Your task to perform on an android device: Check the settings for the Twitter app Image 0: 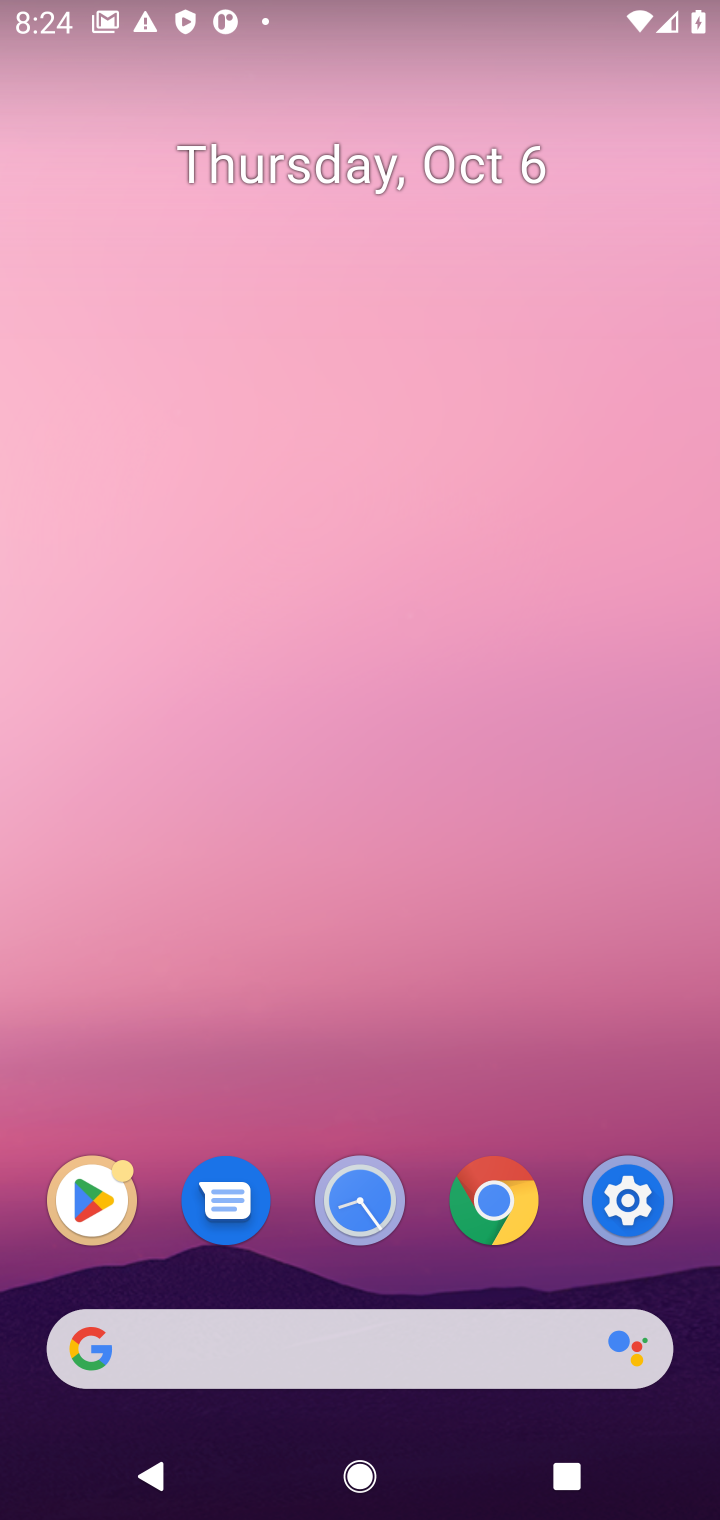
Step 0: click (492, 1210)
Your task to perform on an android device: Check the settings for the Twitter app Image 1: 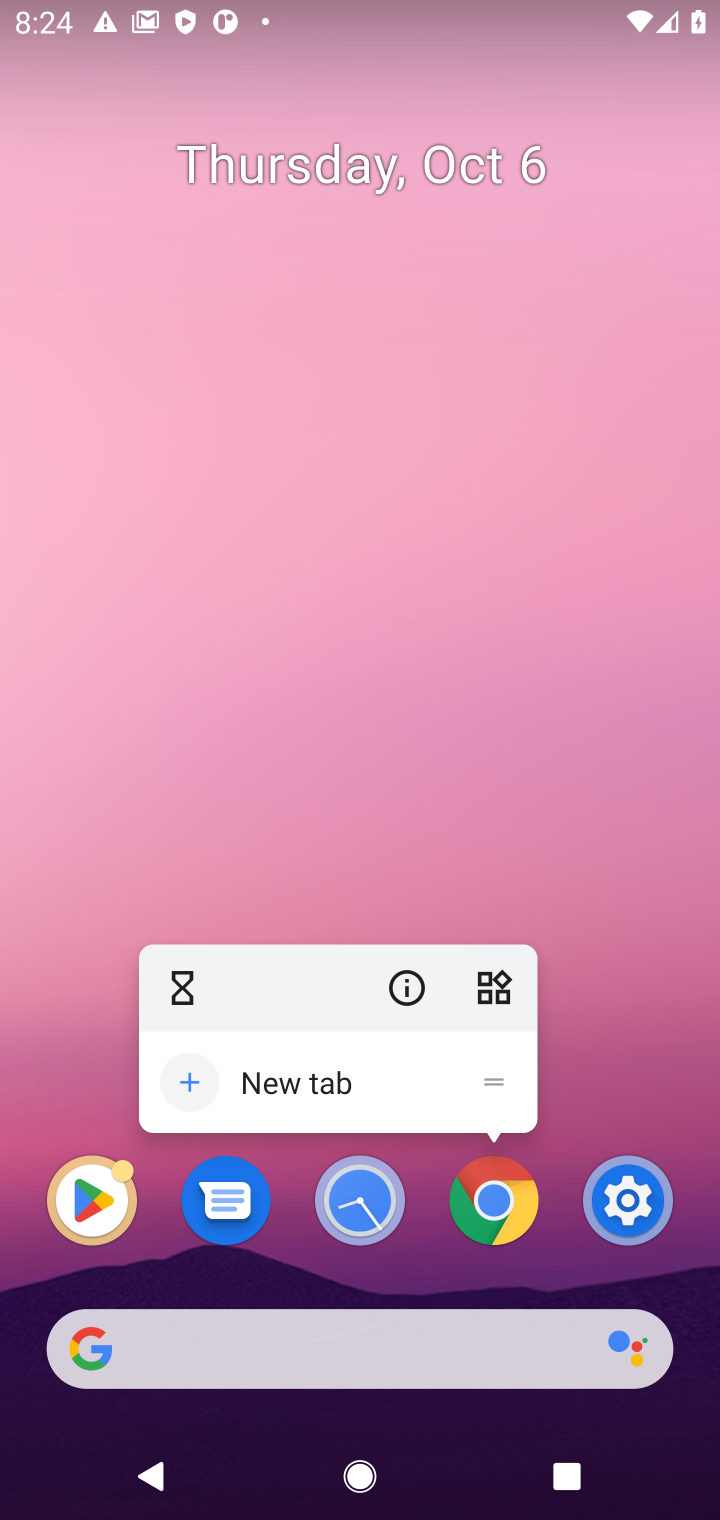
Step 1: click (516, 1202)
Your task to perform on an android device: Check the settings for the Twitter app Image 2: 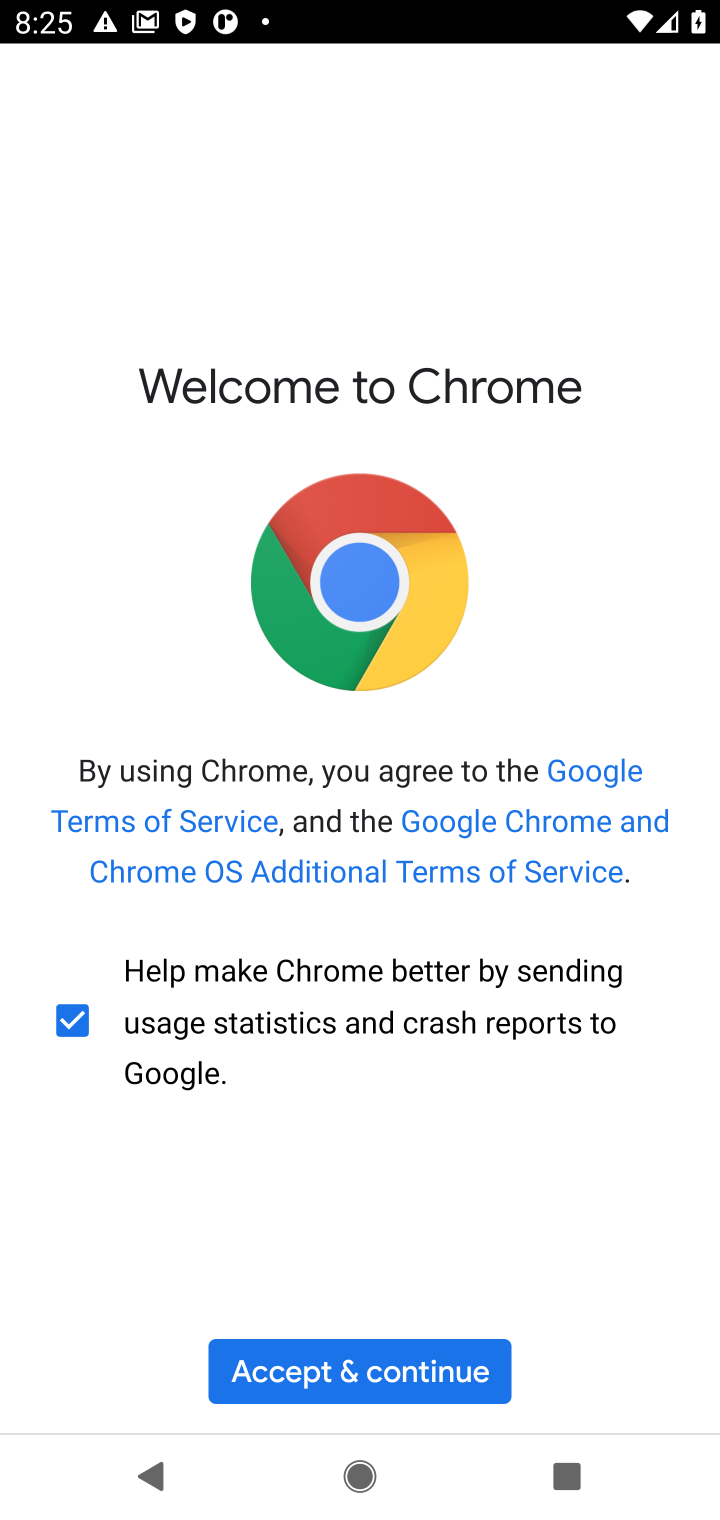
Step 2: click (404, 1375)
Your task to perform on an android device: Check the settings for the Twitter app Image 3: 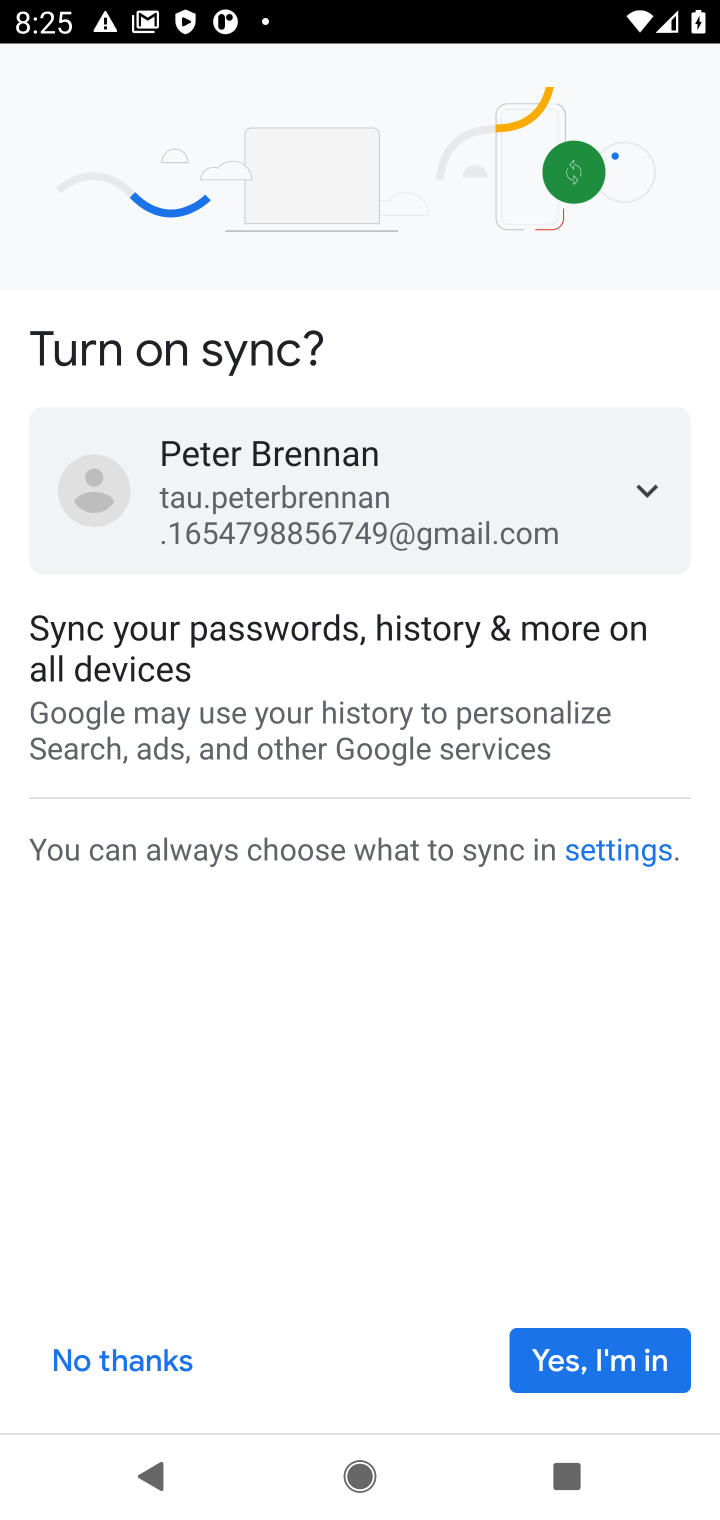
Step 3: click (158, 1363)
Your task to perform on an android device: Check the settings for the Twitter app Image 4: 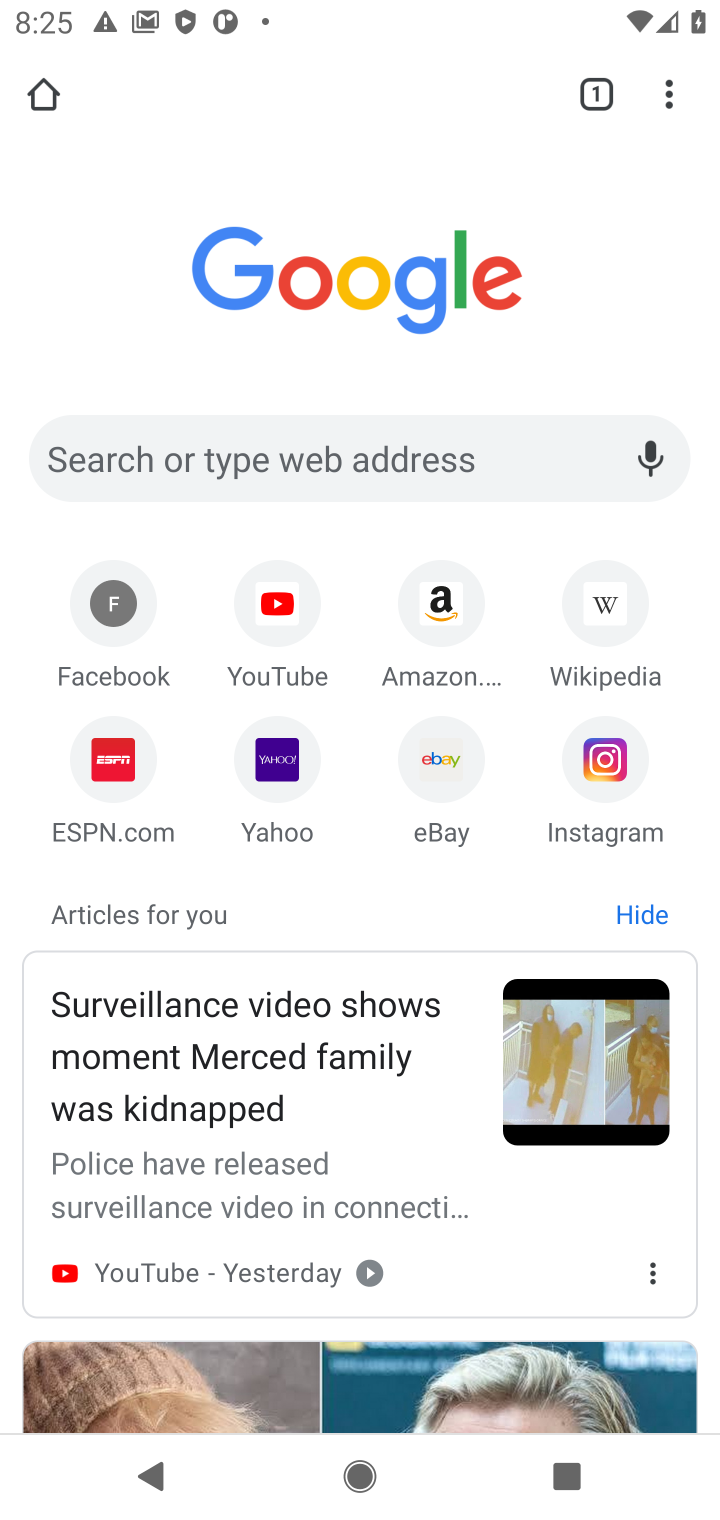
Step 4: click (419, 441)
Your task to perform on an android device: Check the settings for the Twitter app Image 5: 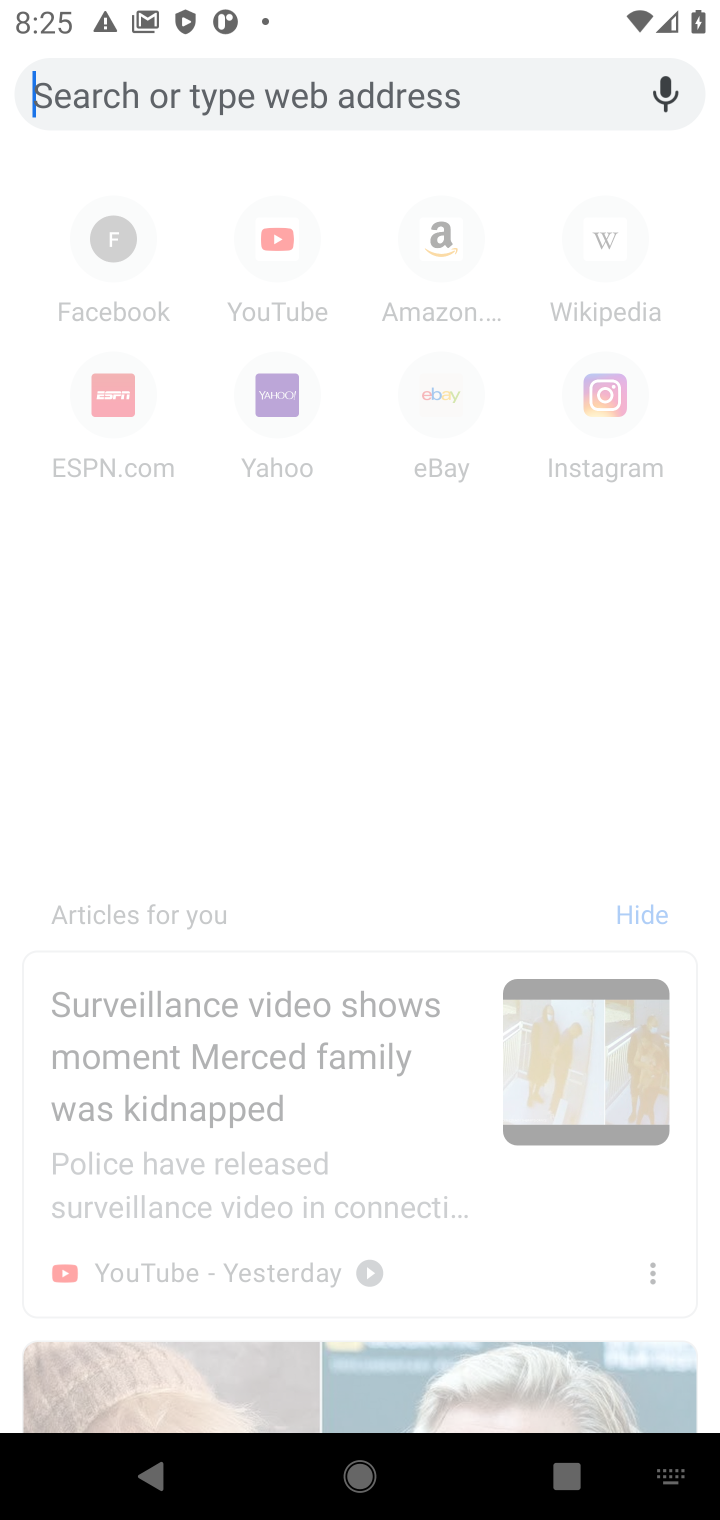
Step 5: type "twitter app"
Your task to perform on an android device: Check the settings for the Twitter app Image 6: 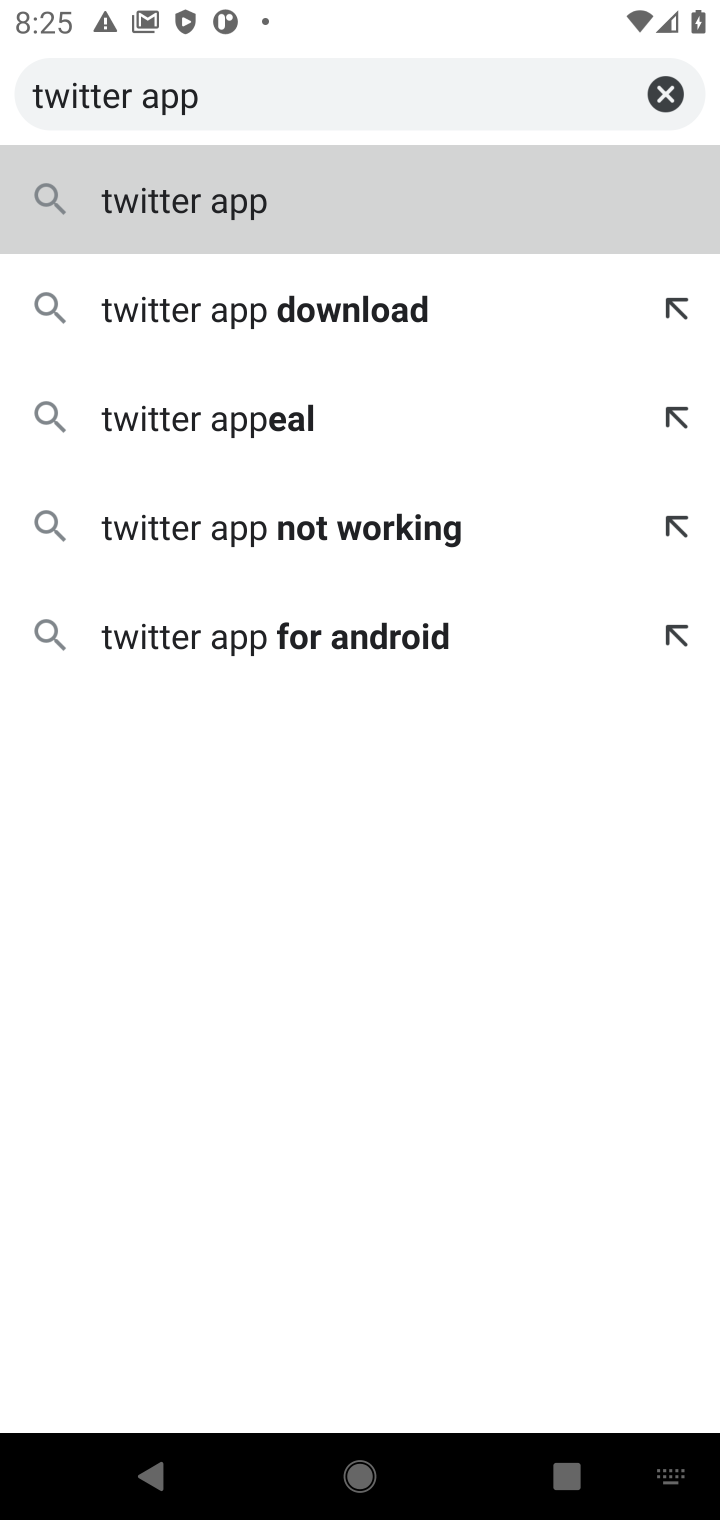
Step 6: click (159, 308)
Your task to perform on an android device: Check the settings for the Twitter app Image 7: 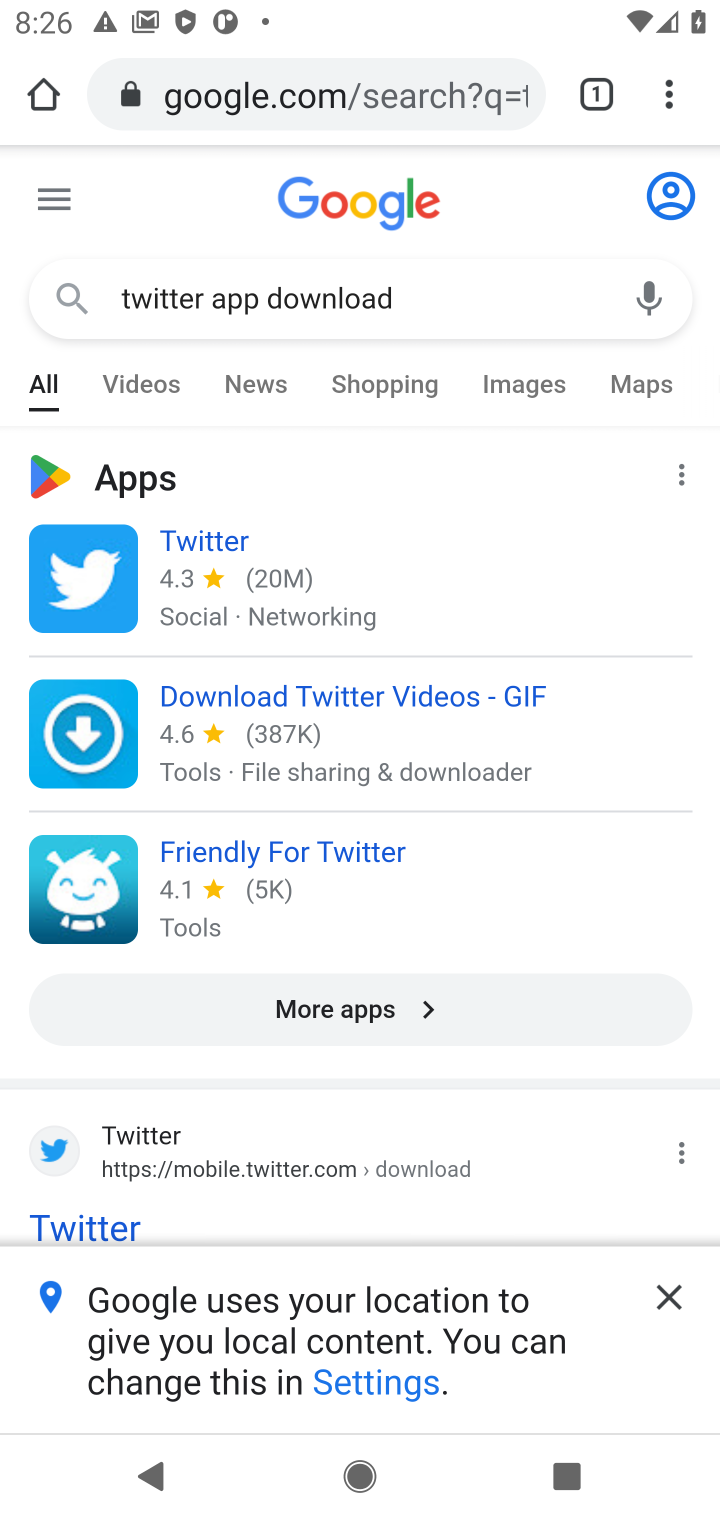
Step 7: click (209, 544)
Your task to perform on an android device: Check the settings for the Twitter app Image 8: 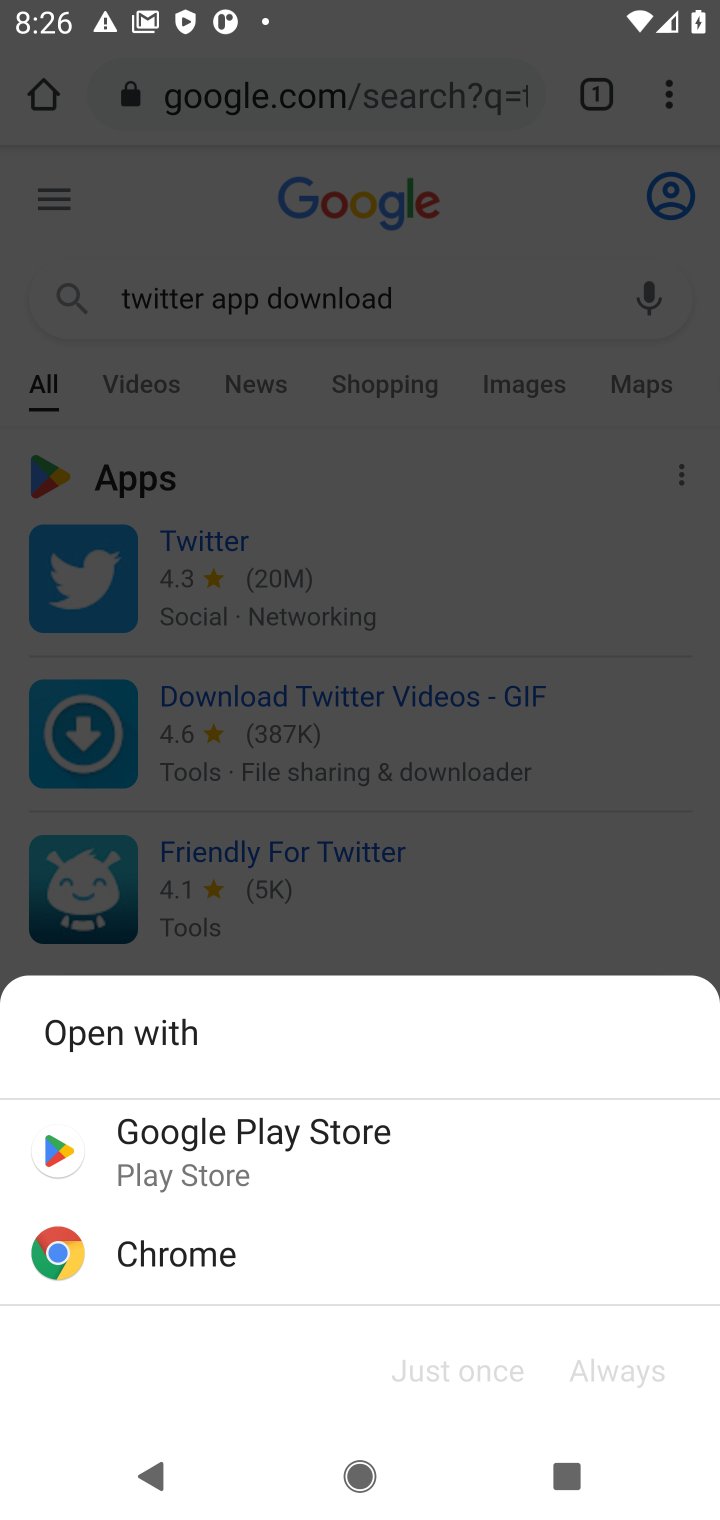
Step 8: click (256, 1134)
Your task to perform on an android device: Check the settings for the Twitter app Image 9: 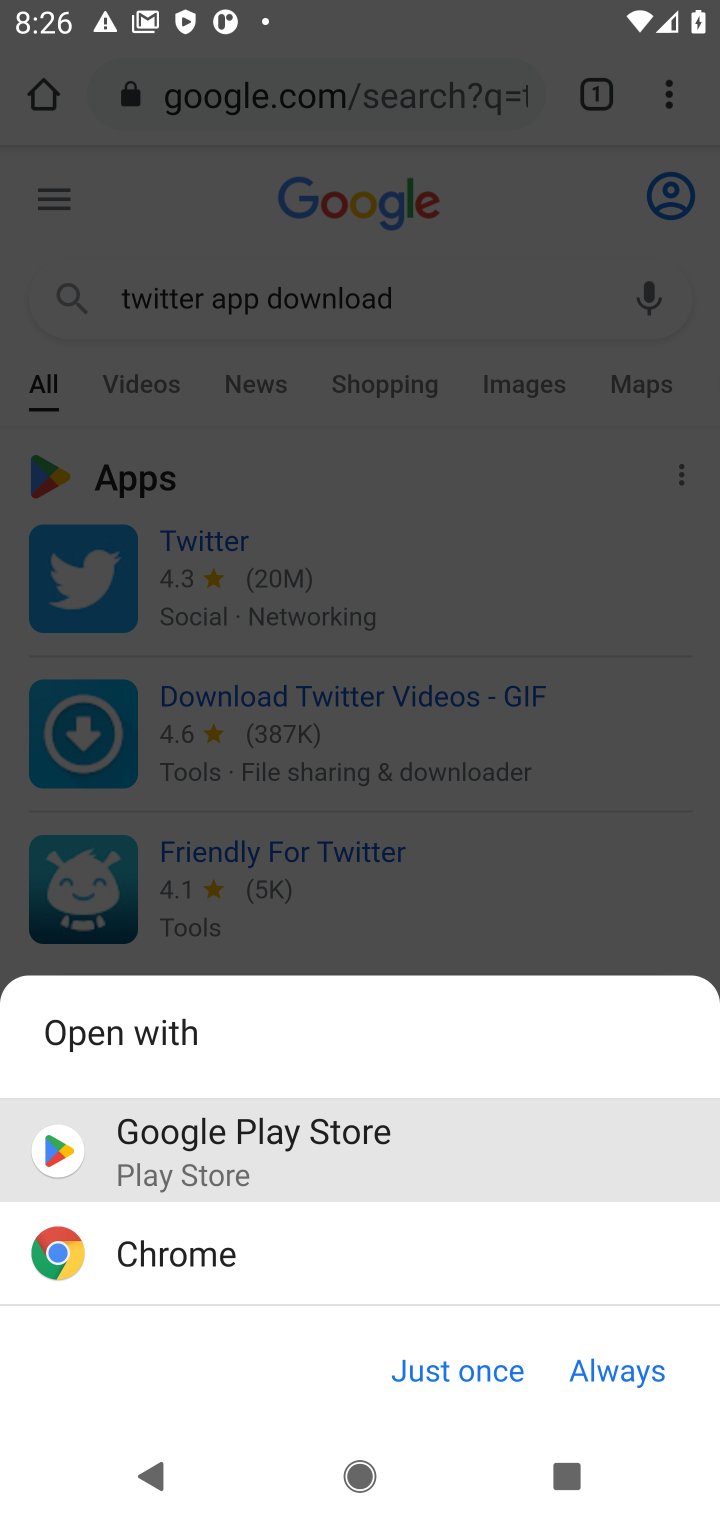
Step 9: press back button
Your task to perform on an android device: Check the settings for the Twitter app Image 10: 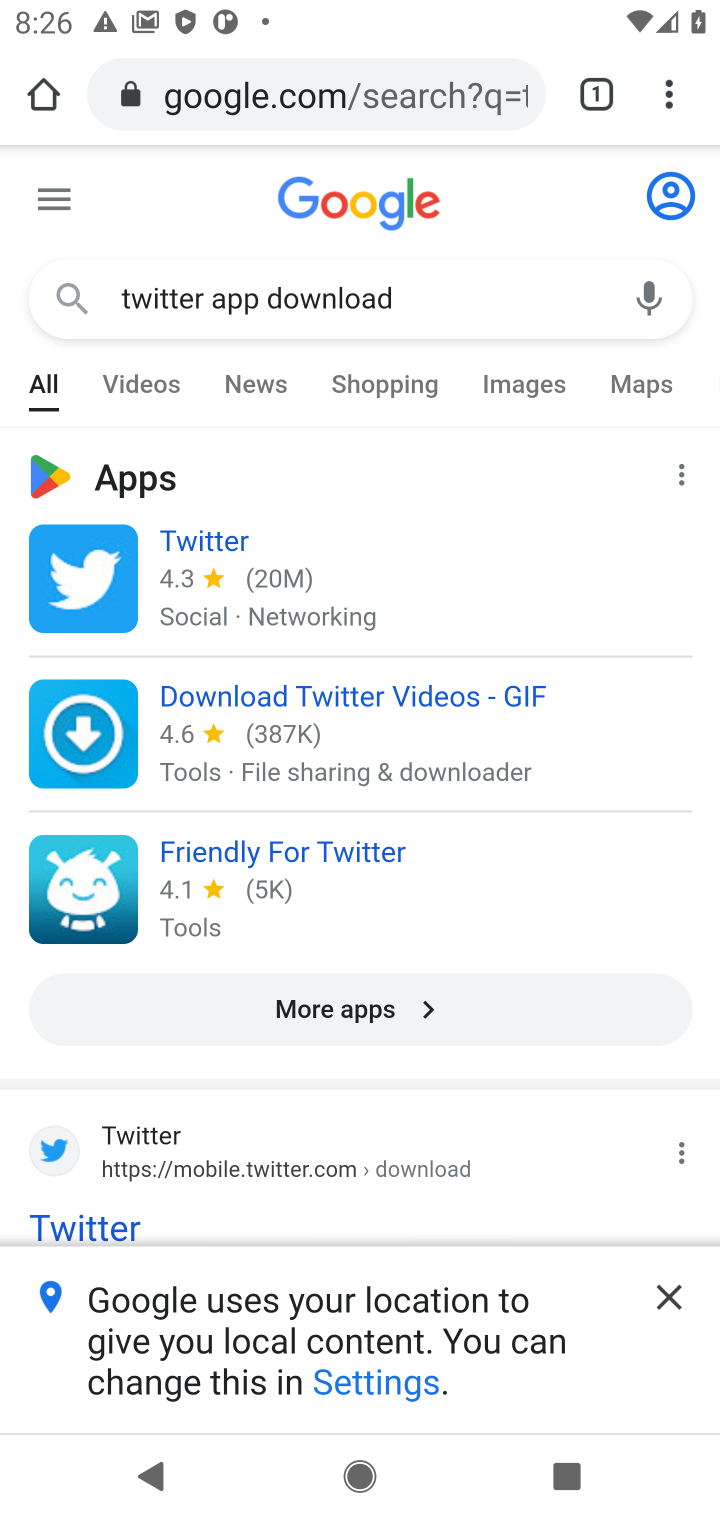
Step 10: drag from (477, 1074) to (590, 442)
Your task to perform on an android device: Check the settings for the Twitter app Image 11: 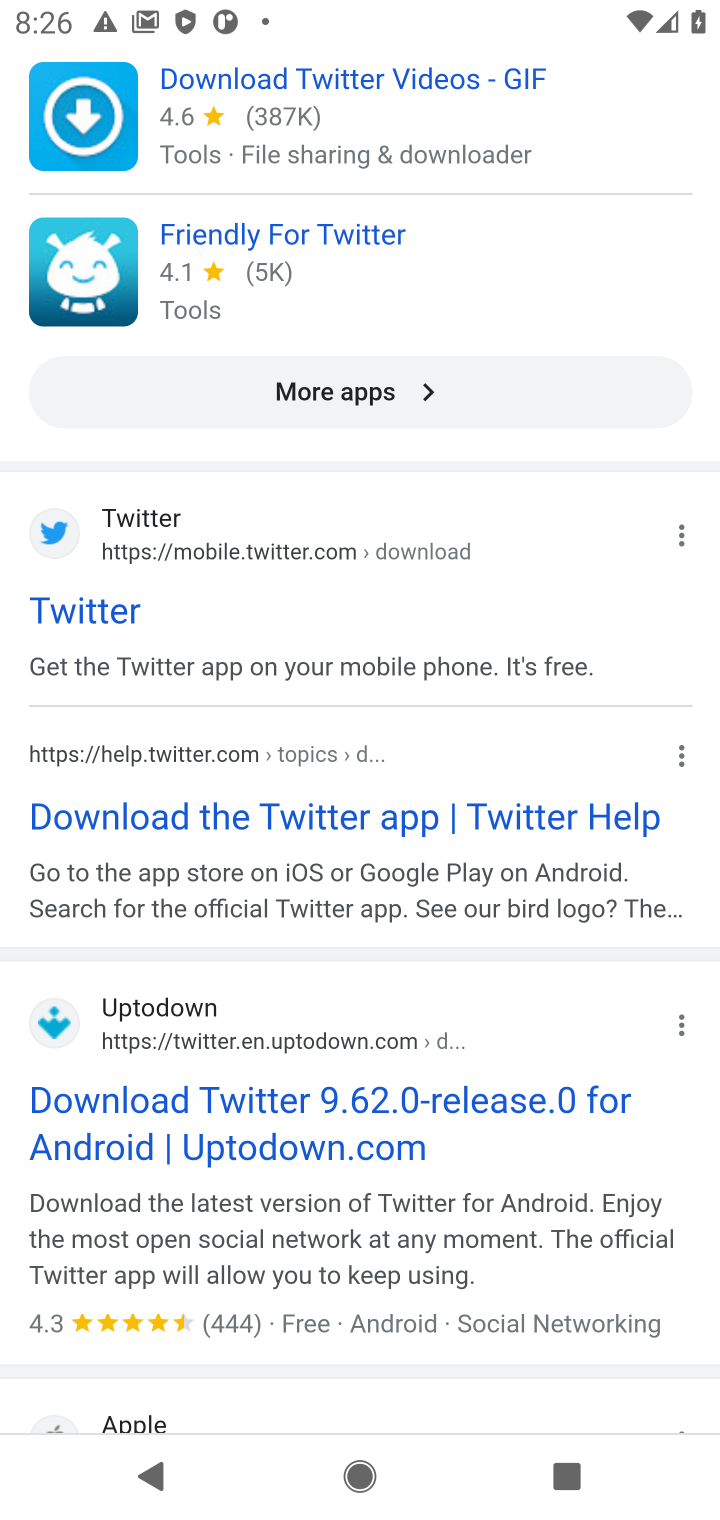
Step 11: click (104, 607)
Your task to perform on an android device: Check the settings for the Twitter app Image 12: 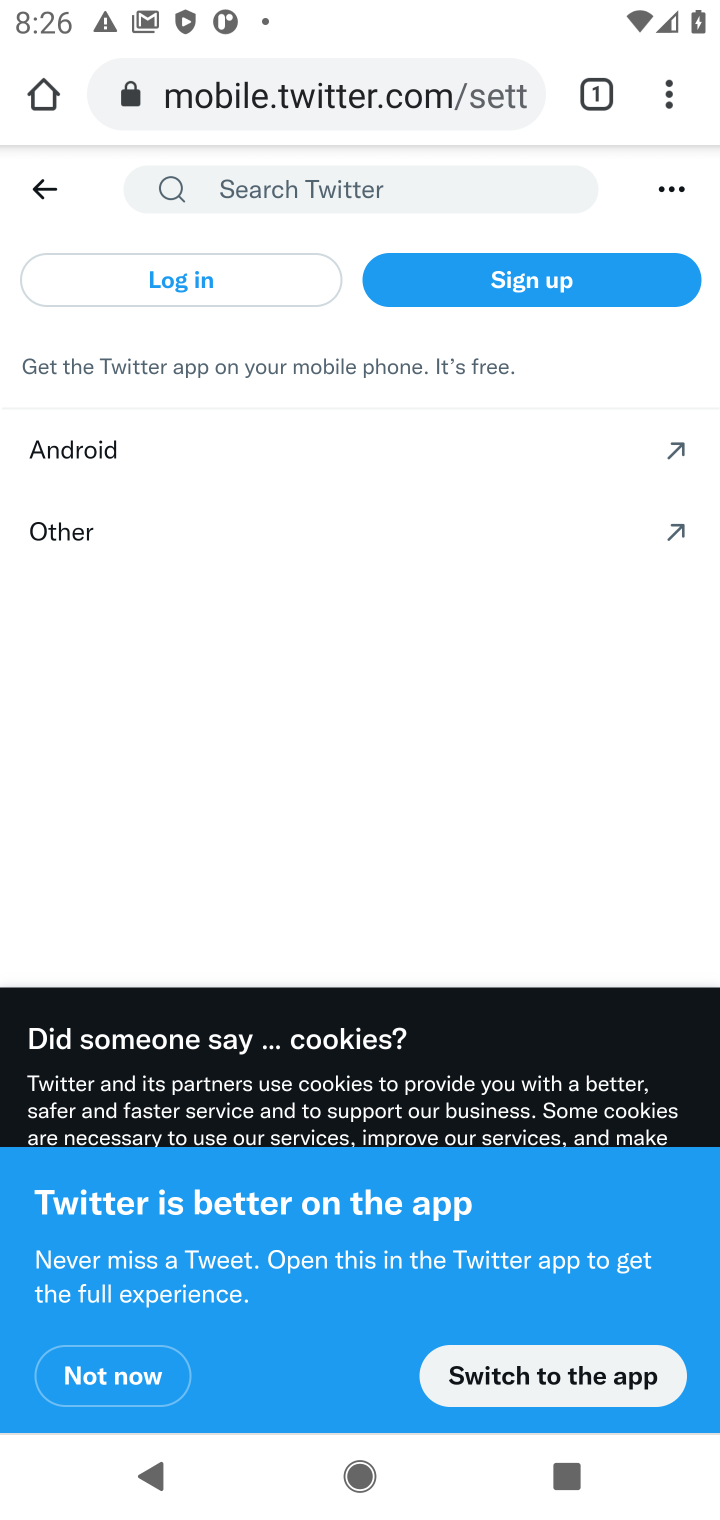
Step 12: drag from (449, 834) to (512, 374)
Your task to perform on an android device: Check the settings for the Twitter app Image 13: 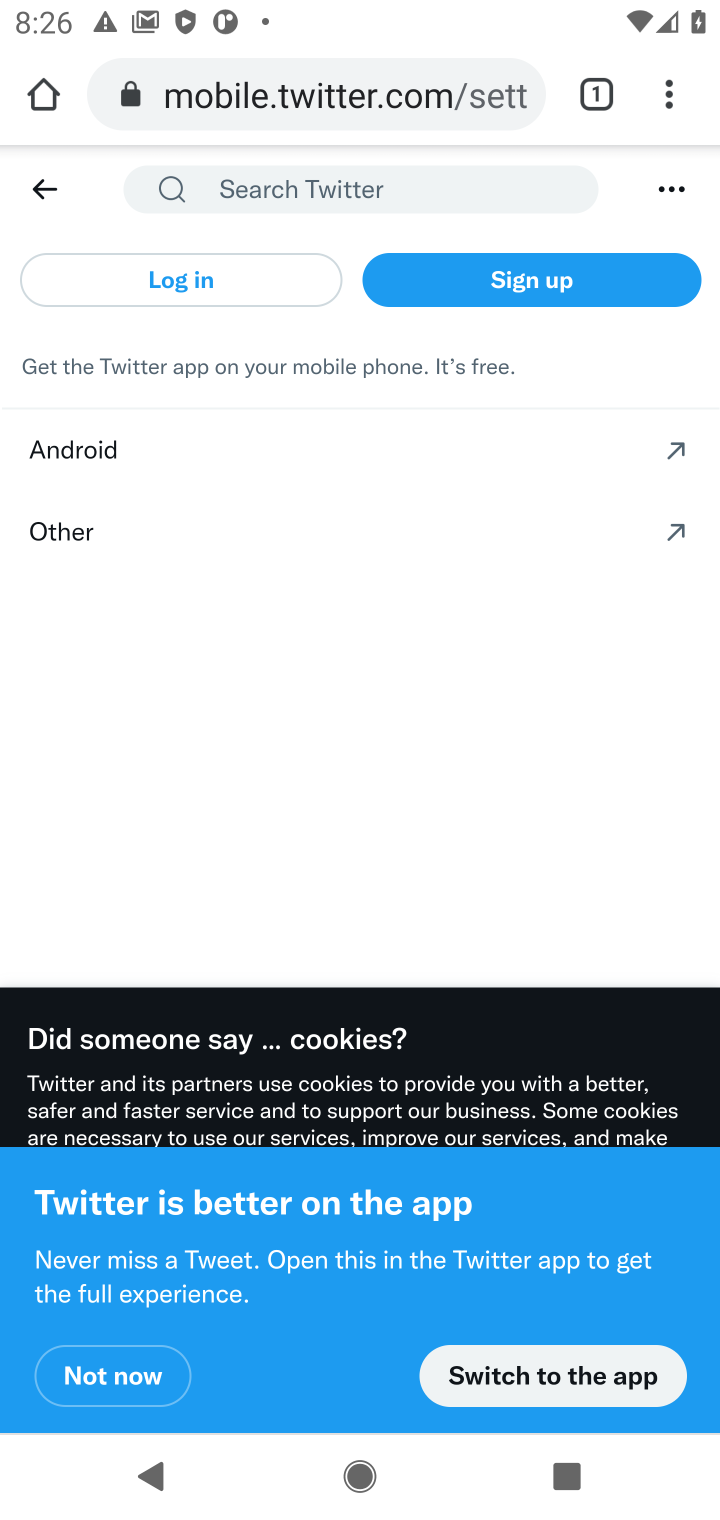
Step 13: drag from (416, 667) to (479, 448)
Your task to perform on an android device: Check the settings for the Twitter app Image 14: 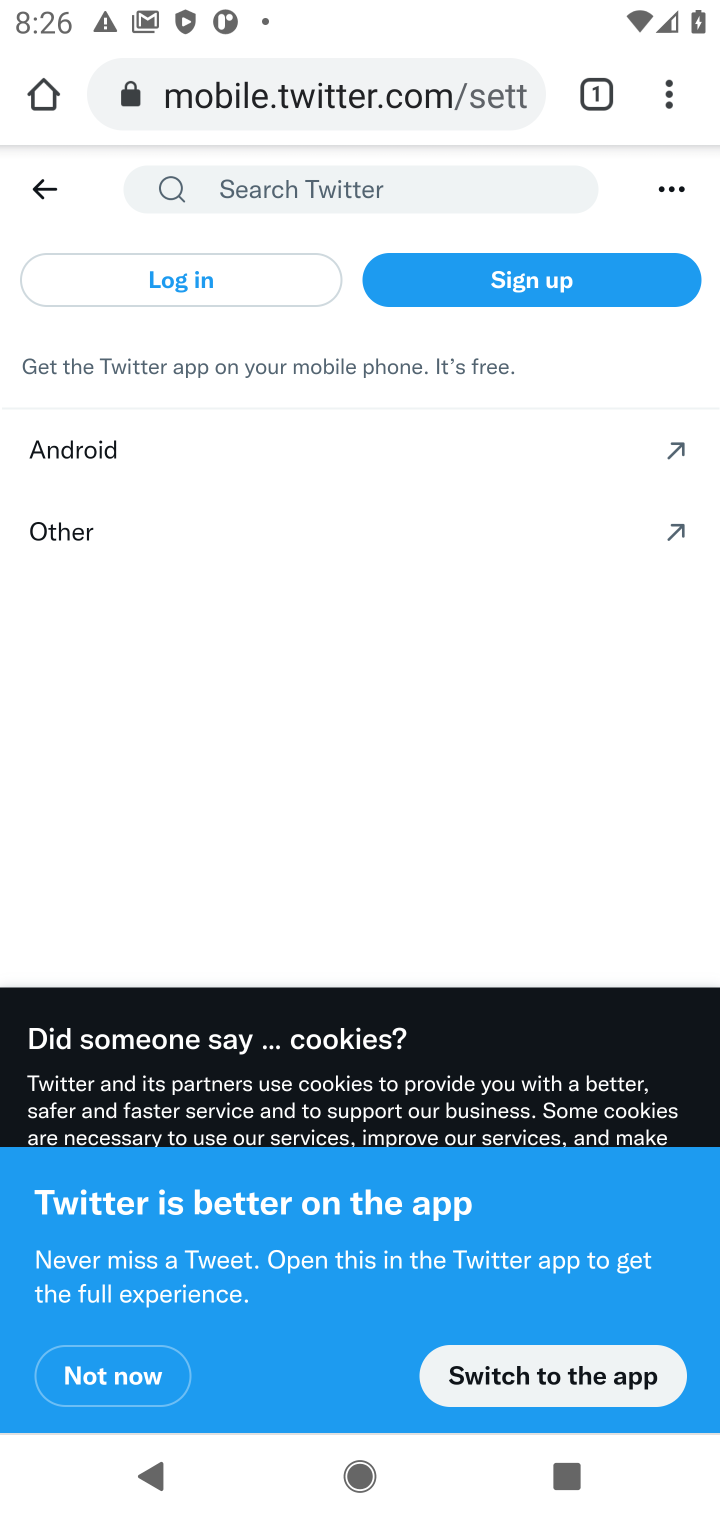
Step 14: press back button
Your task to perform on an android device: Check the settings for the Twitter app Image 15: 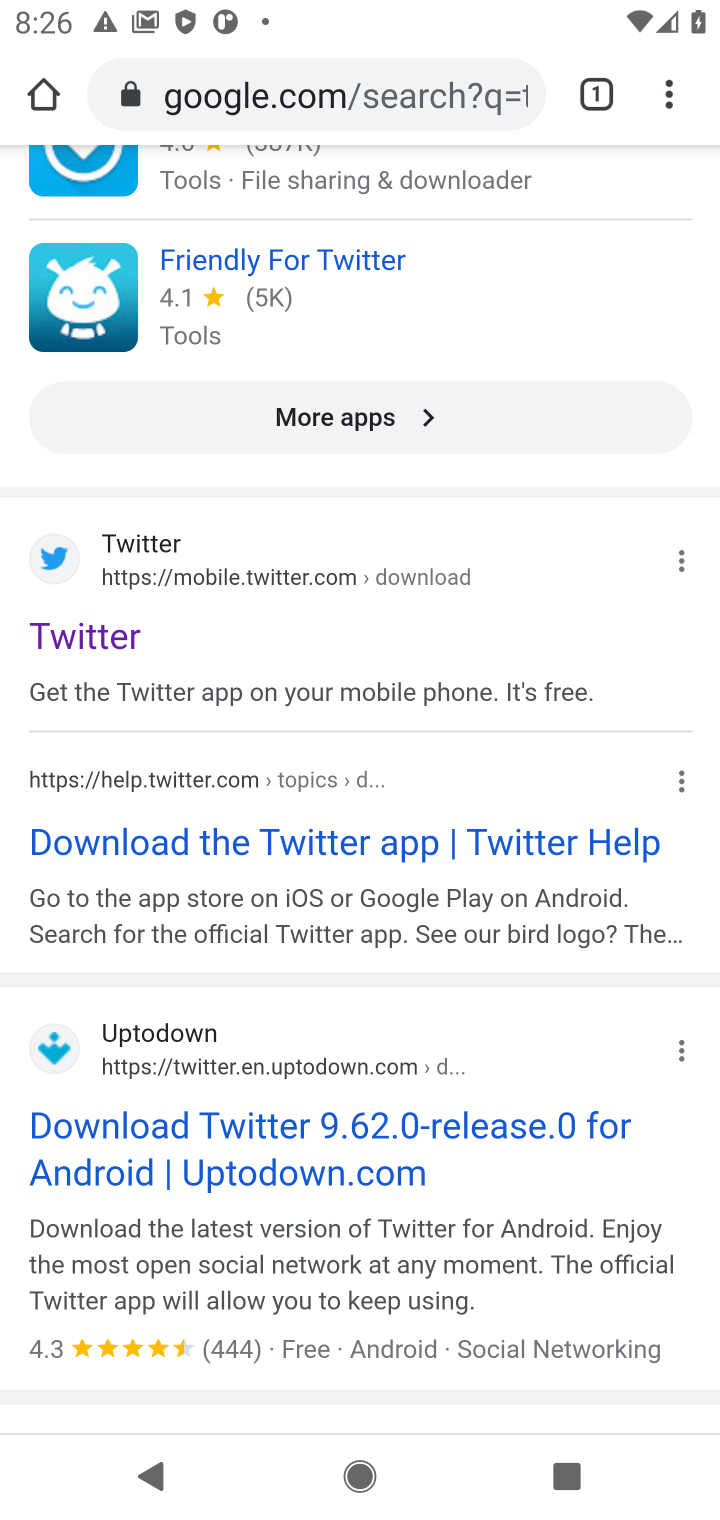
Step 15: click (346, 852)
Your task to perform on an android device: Check the settings for the Twitter app Image 16: 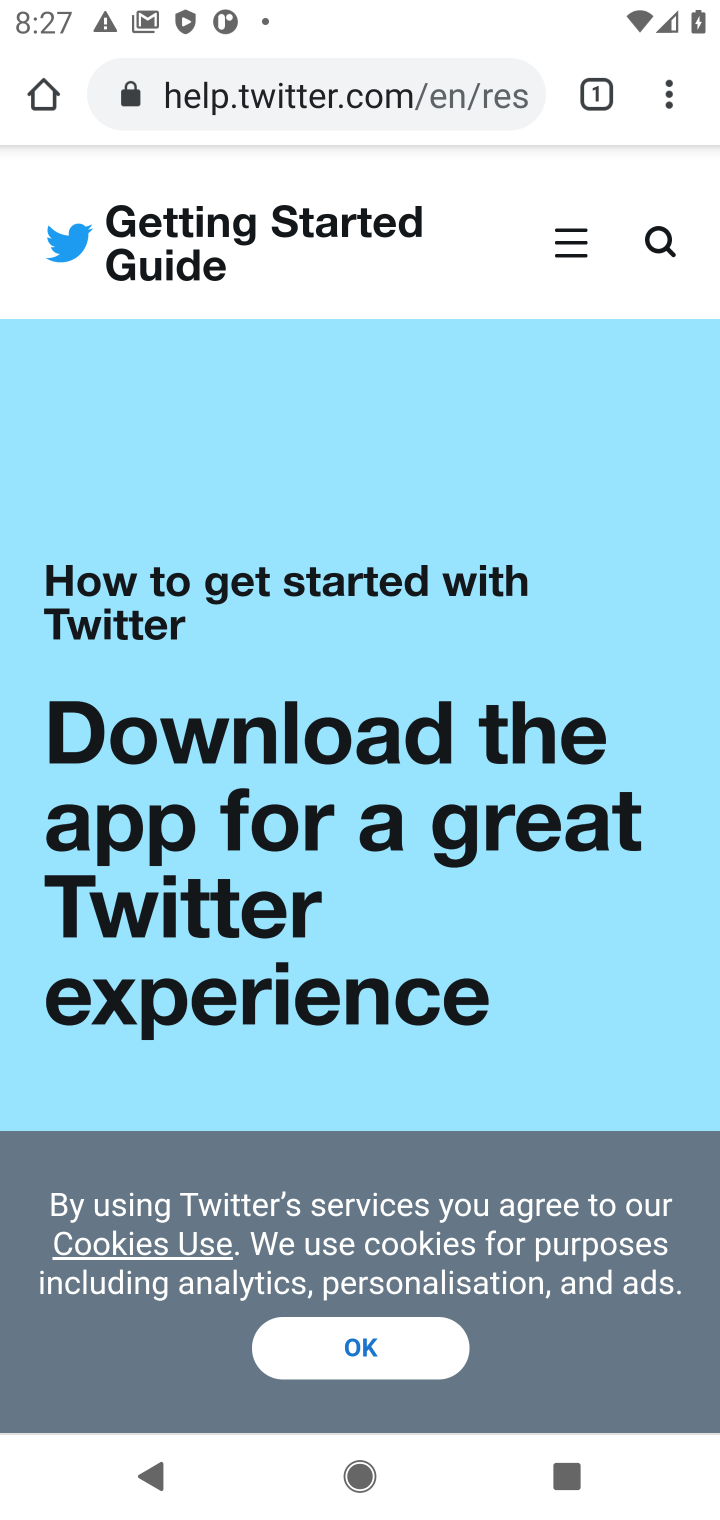
Step 16: click (378, 1371)
Your task to perform on an android device: Check the settings for the Twitter app Image 17: 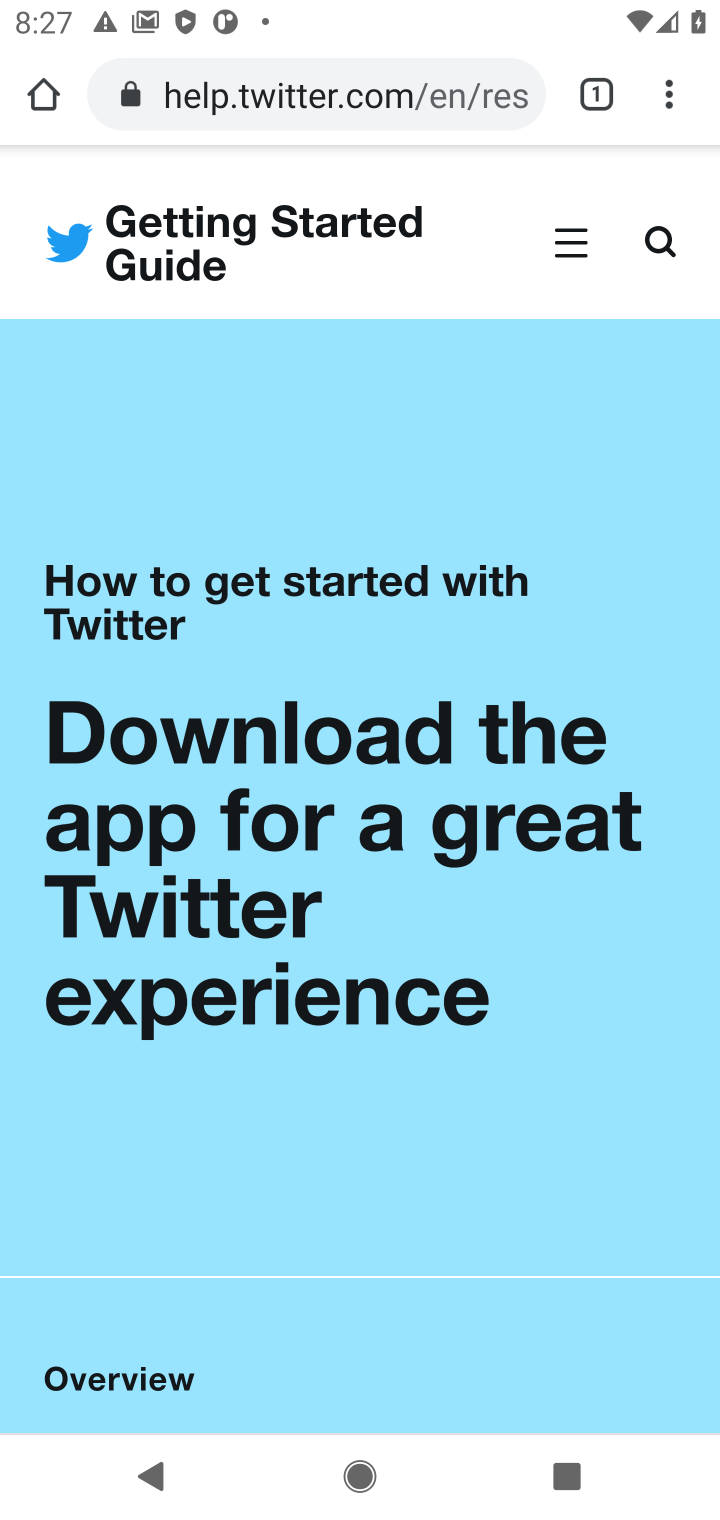
Step 17: drag from (411, 1140) to (508, 477)
Your task to perform on an android device: Check the settings for the Twitter app Image 18: 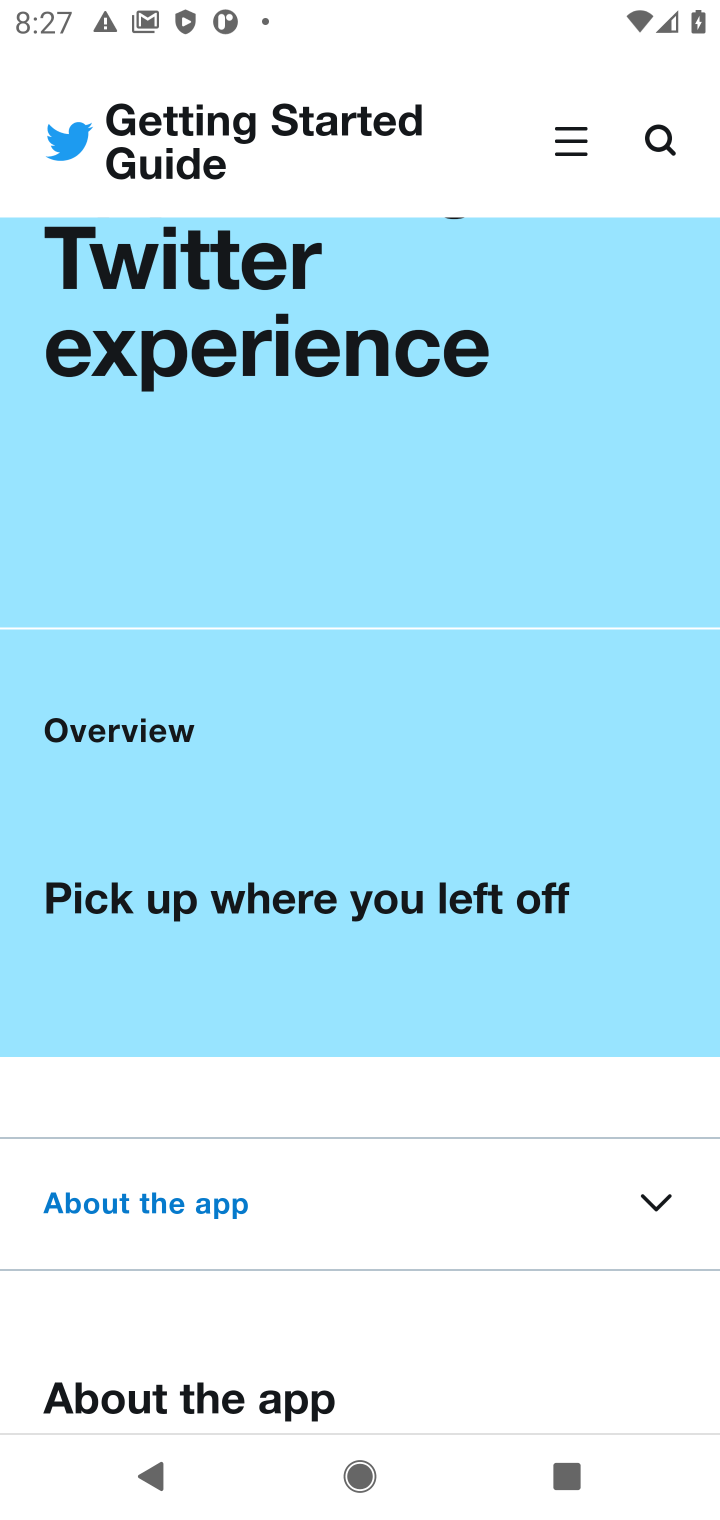
Step 18: press back button
Your task to perform on an android device: Check the settings for the Twitter app Image 19: 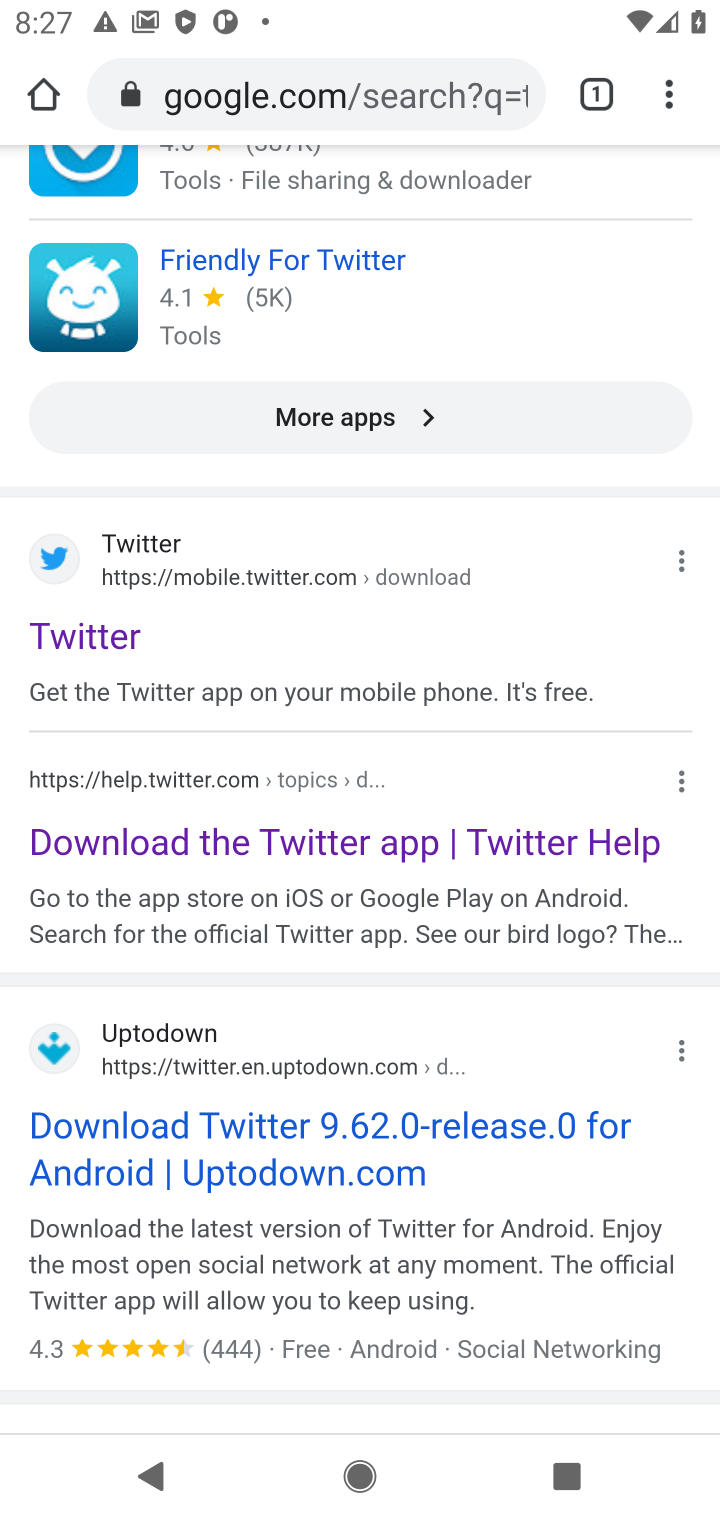
Step 19: press back button
Your task to perform on an android device: Check the settings for the Twitter app Image 20: 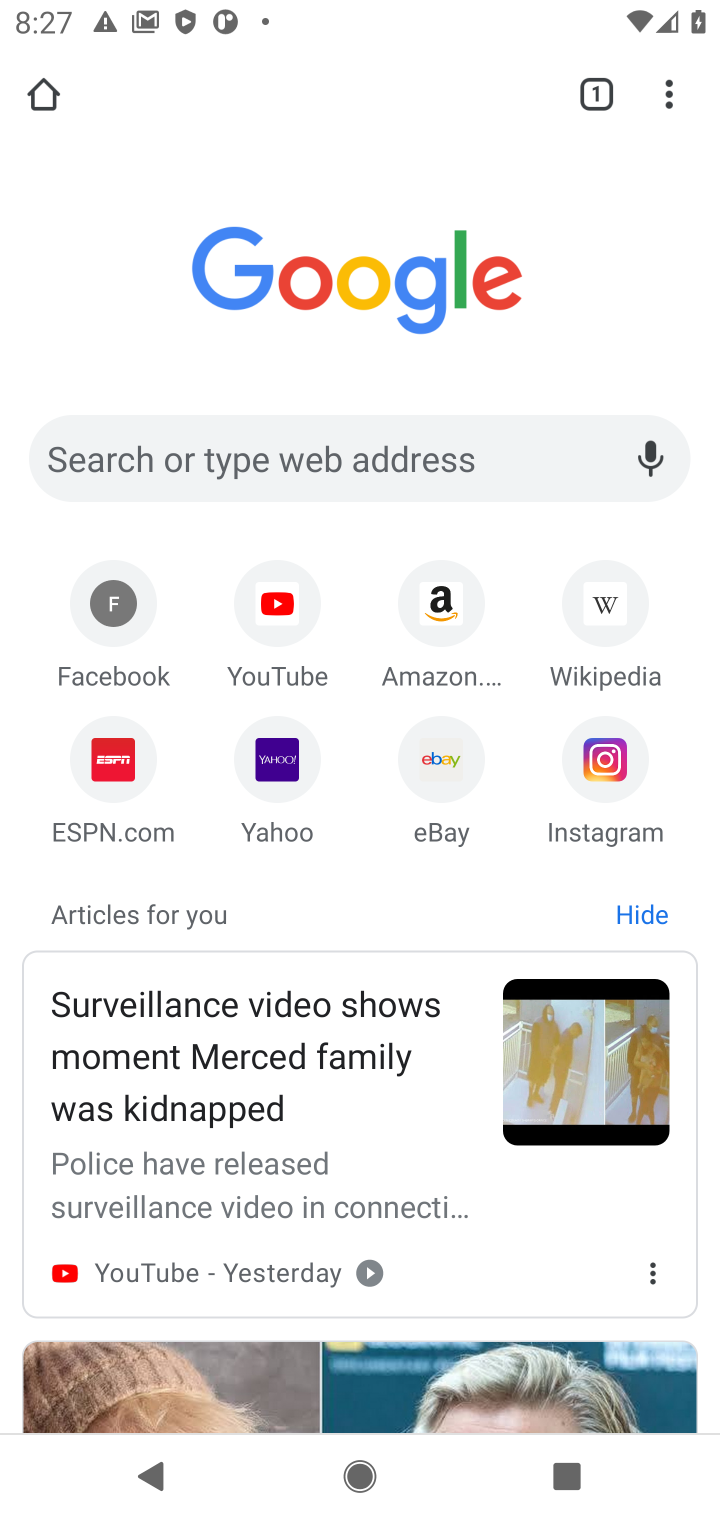
Step 20: press home button
Your task to perform on an android device: Check the settings for the Twitter app Image 21: 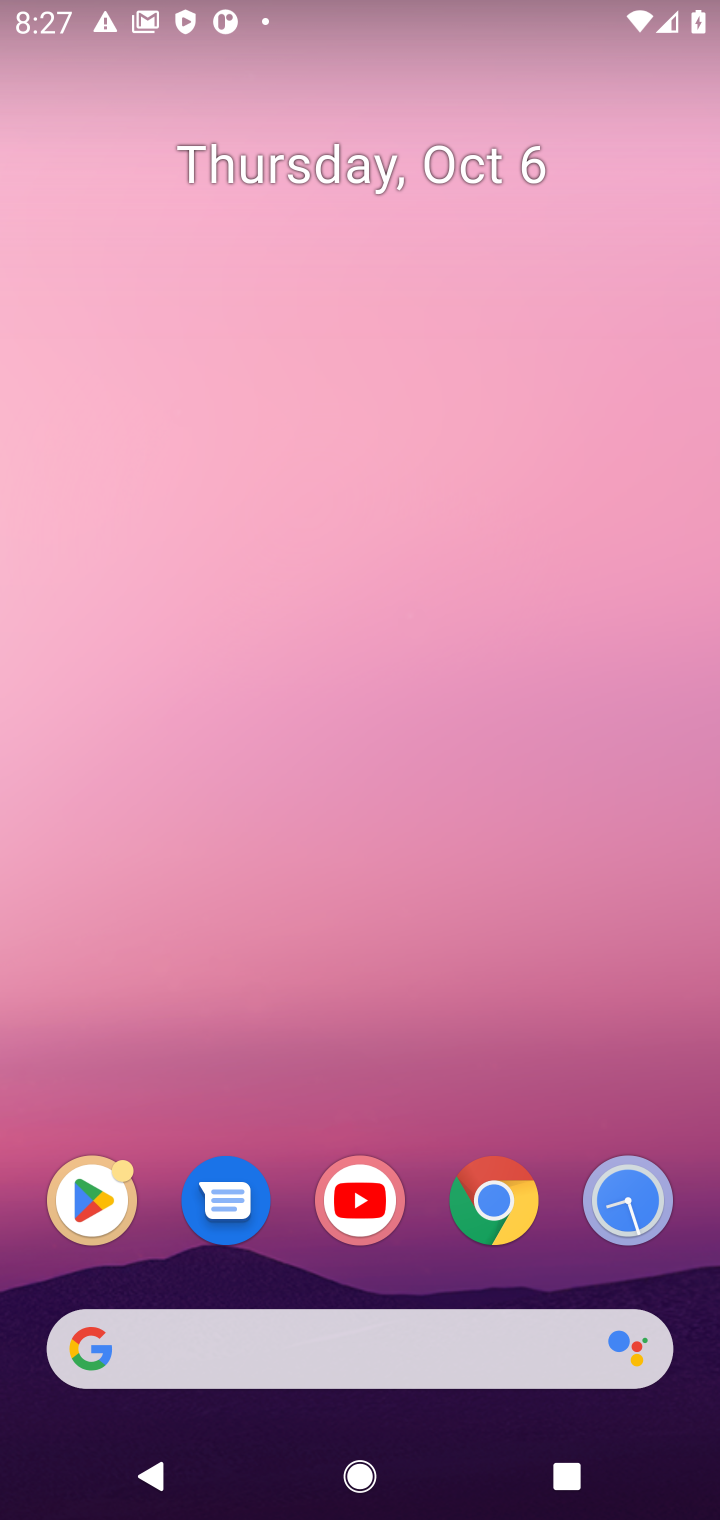
Step 21: drag from (354, 1135) to (385, 363)
Your task to perform on an android device: Check the settings for the Twitter app Image 22: 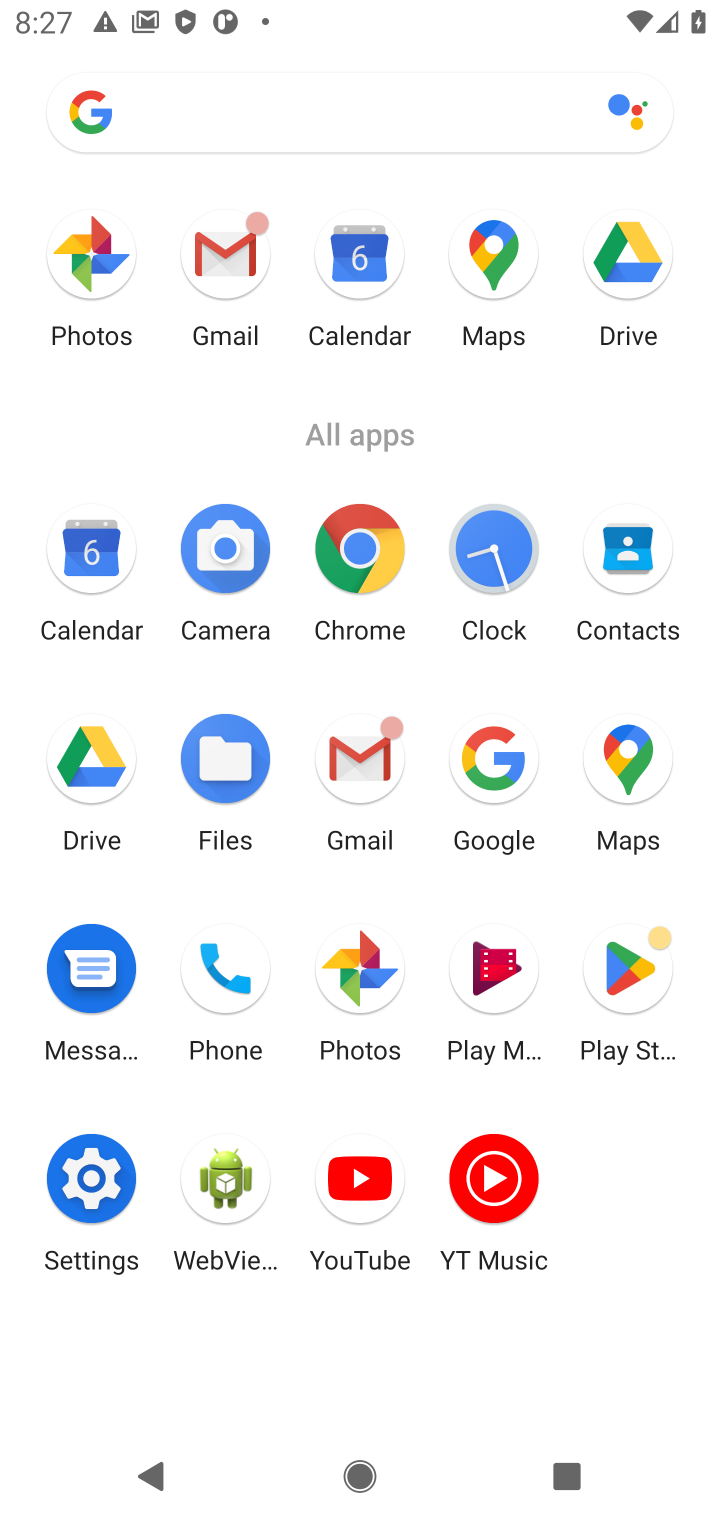
Step 22: click (243, 104)
Your task to perform on an android device: Check the settings for the Twitter app Image 23: 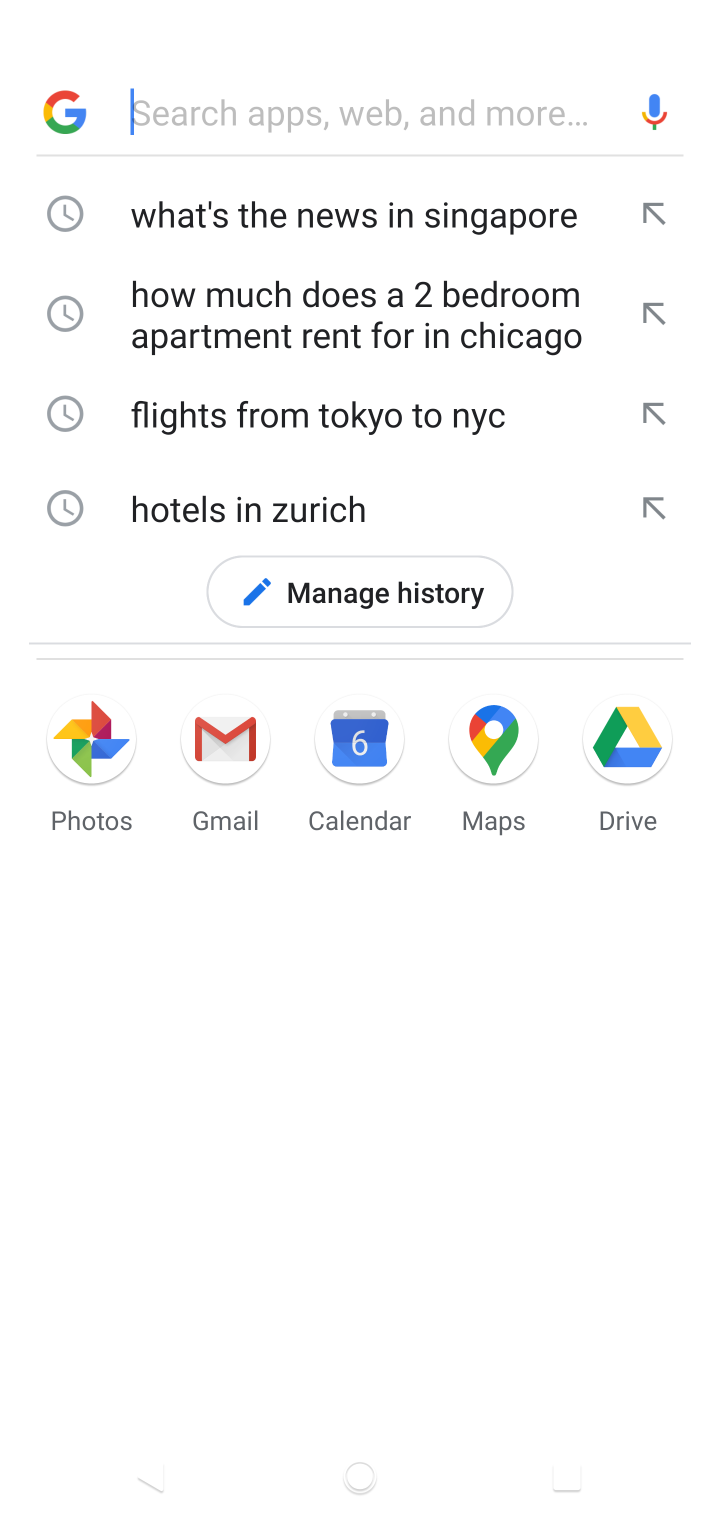
Step 23: type "twitter app"
Your task to perform on an android device: Check the settings for the Twitter app Image 24: 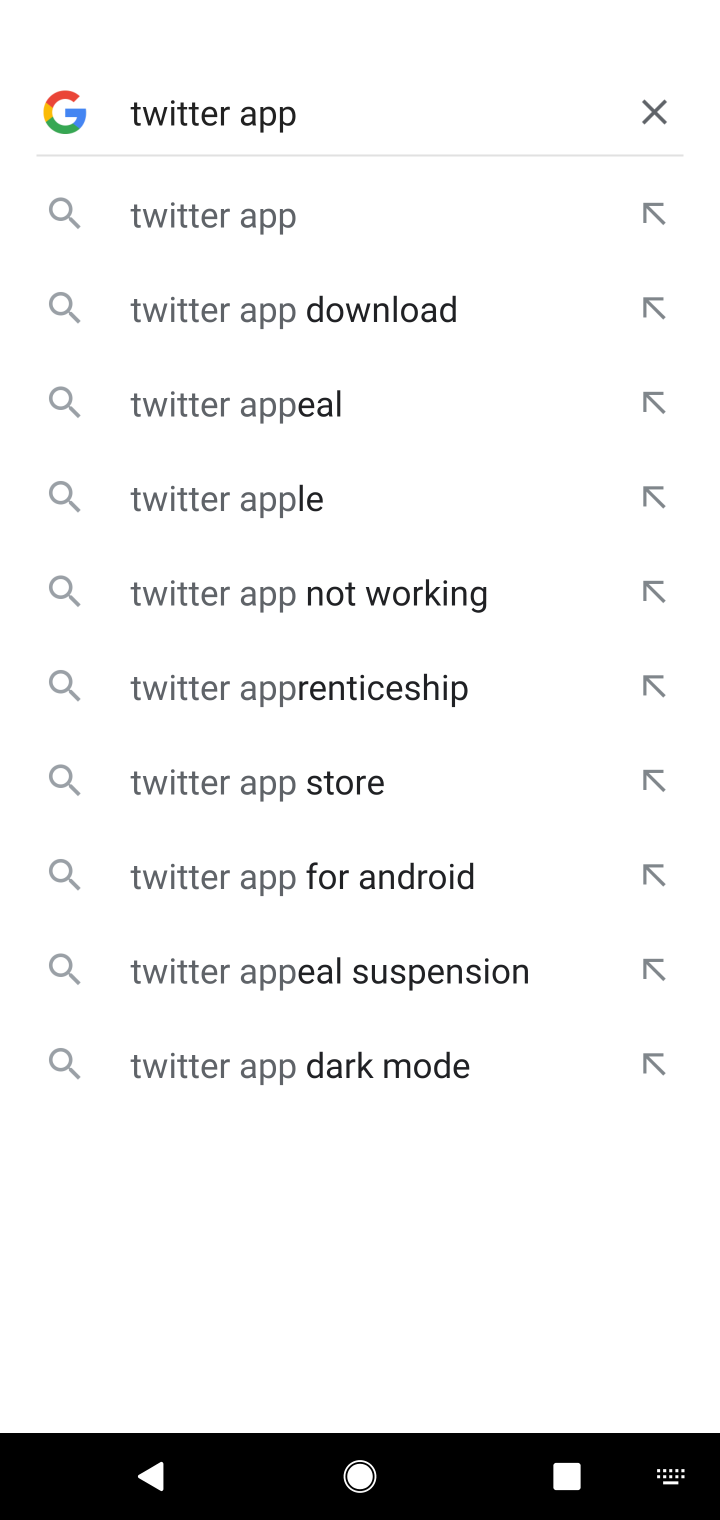
Step 24: type ""
Your task to perform on an android device: Check the settings for the Twitter app Image 25: 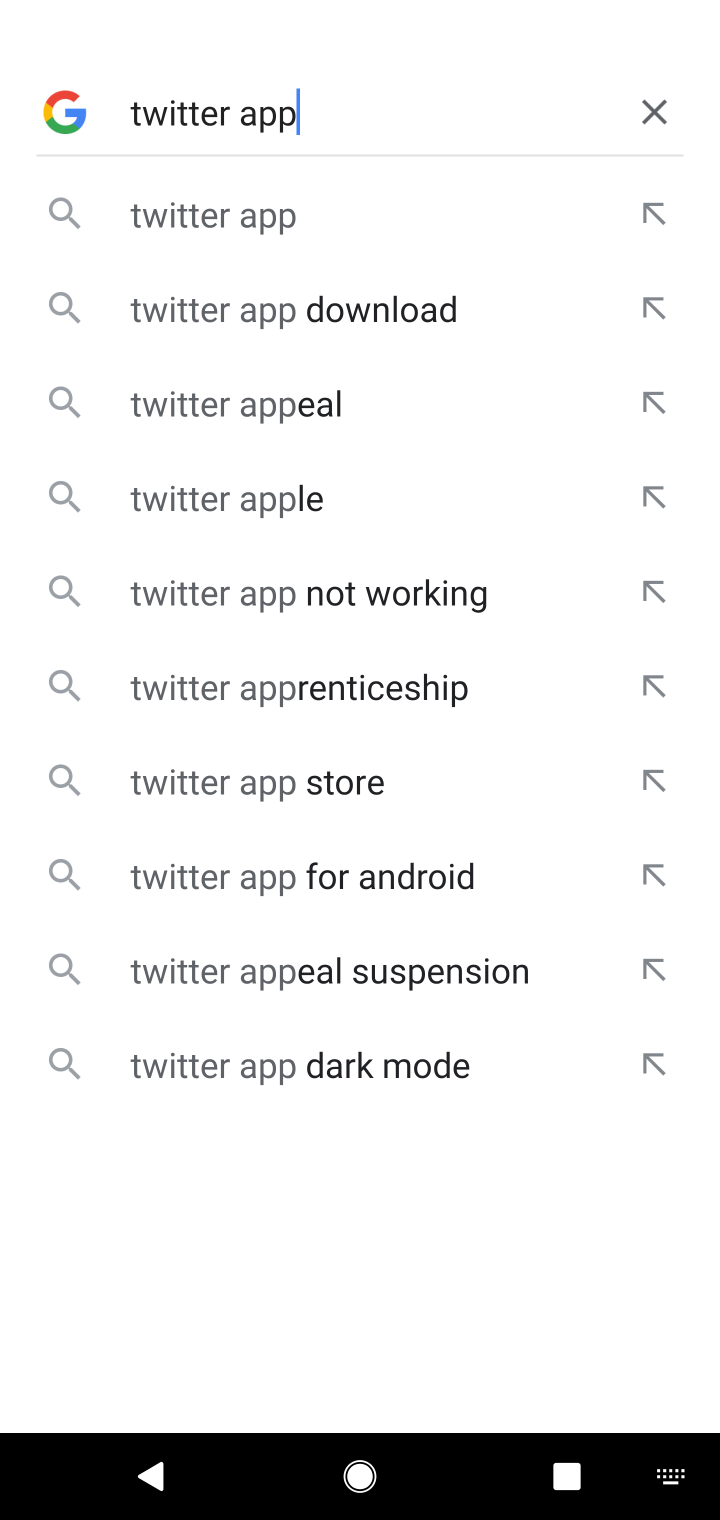
Step 25: click (284, 311)
Your task to perform on an android device: Check the settings for the Twitter app Image 26: 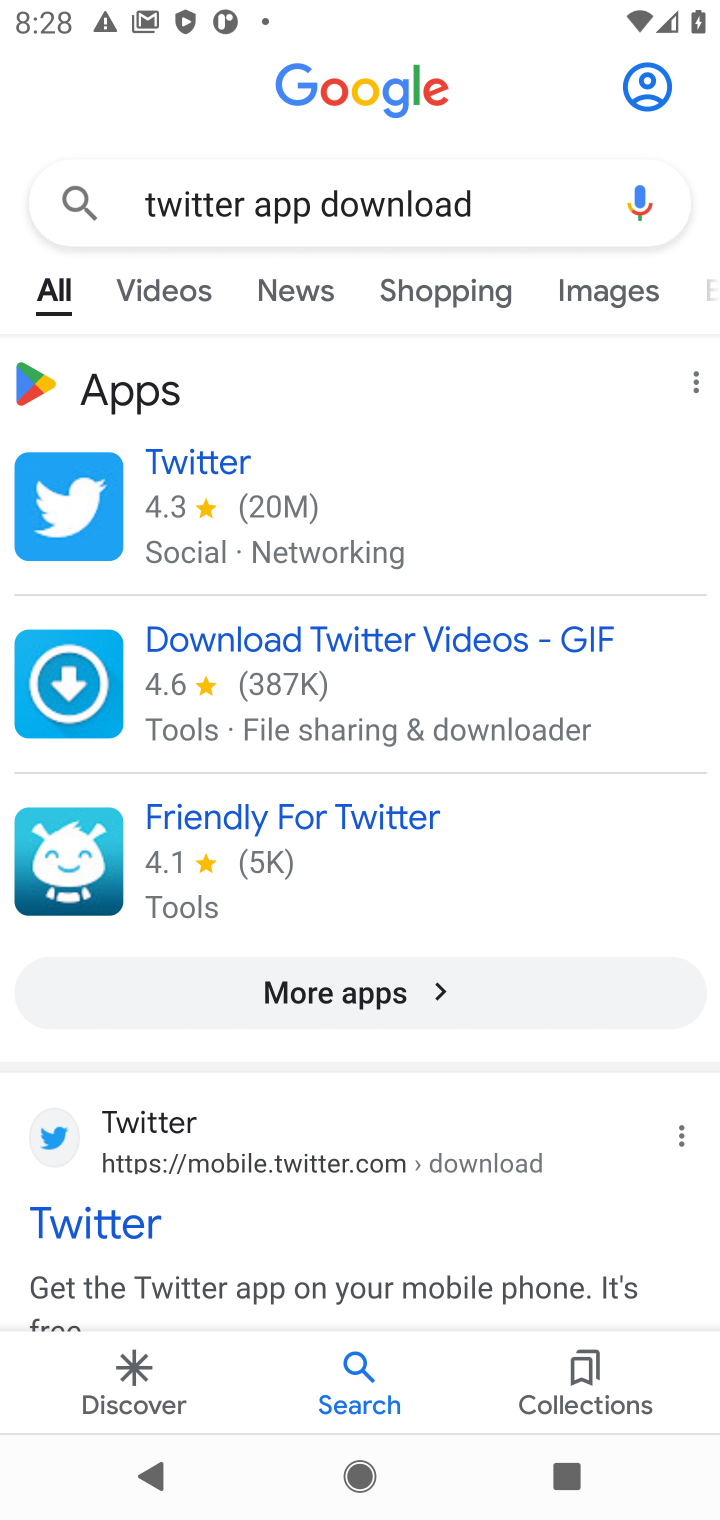
Step 26: click (204, 464)
Your task to perform on an android device: Check the settings for the Twitter app Image 27: 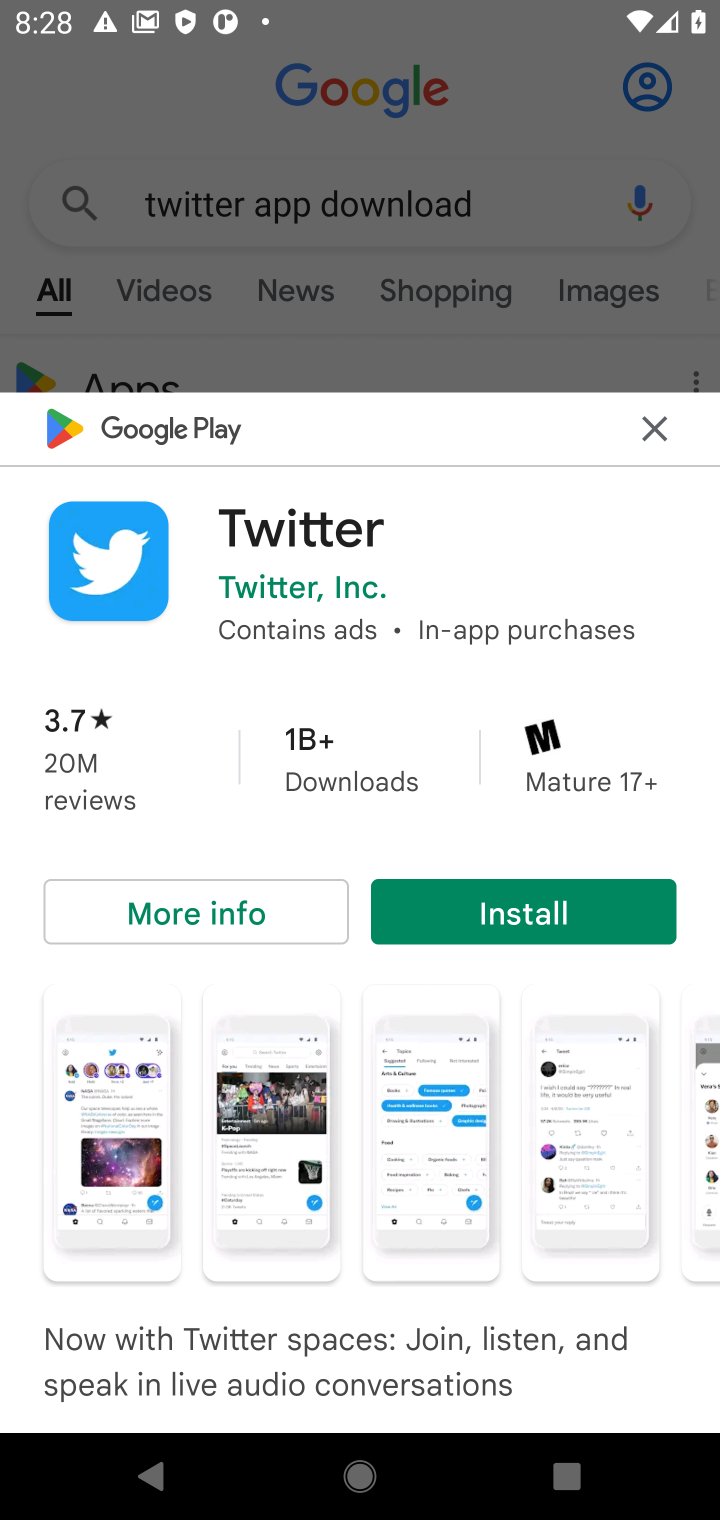
Step 27: click (534, 911)
Your task to perform on an android device: Check the settings for the Twitter app Image 28: 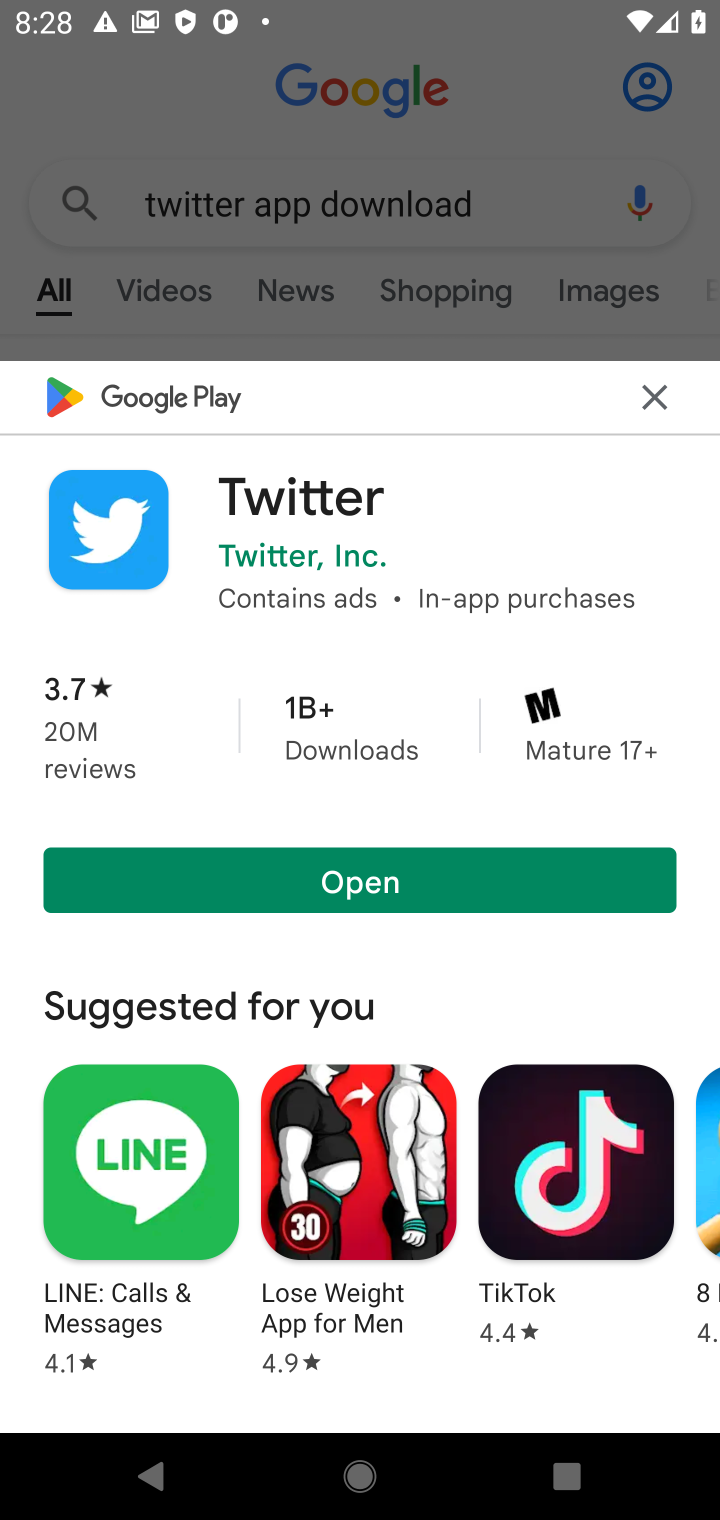
Step 28: click (322, 890)
Your task to perform on an android device: Check the settings for the Twitter app Image 29: 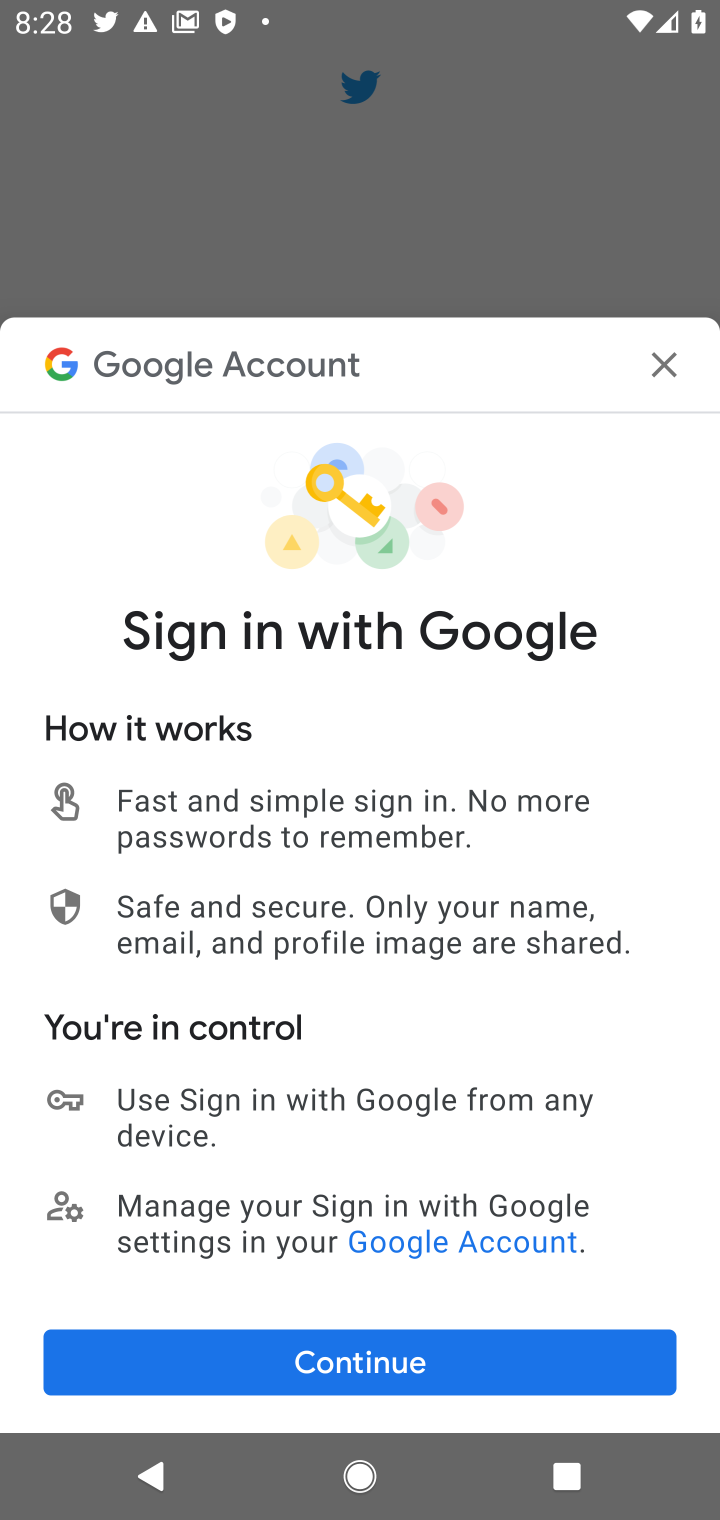
Step 29: click (531, 1365)
Your task to perform on an android device: Check the settings for the Twitter app Image 30: 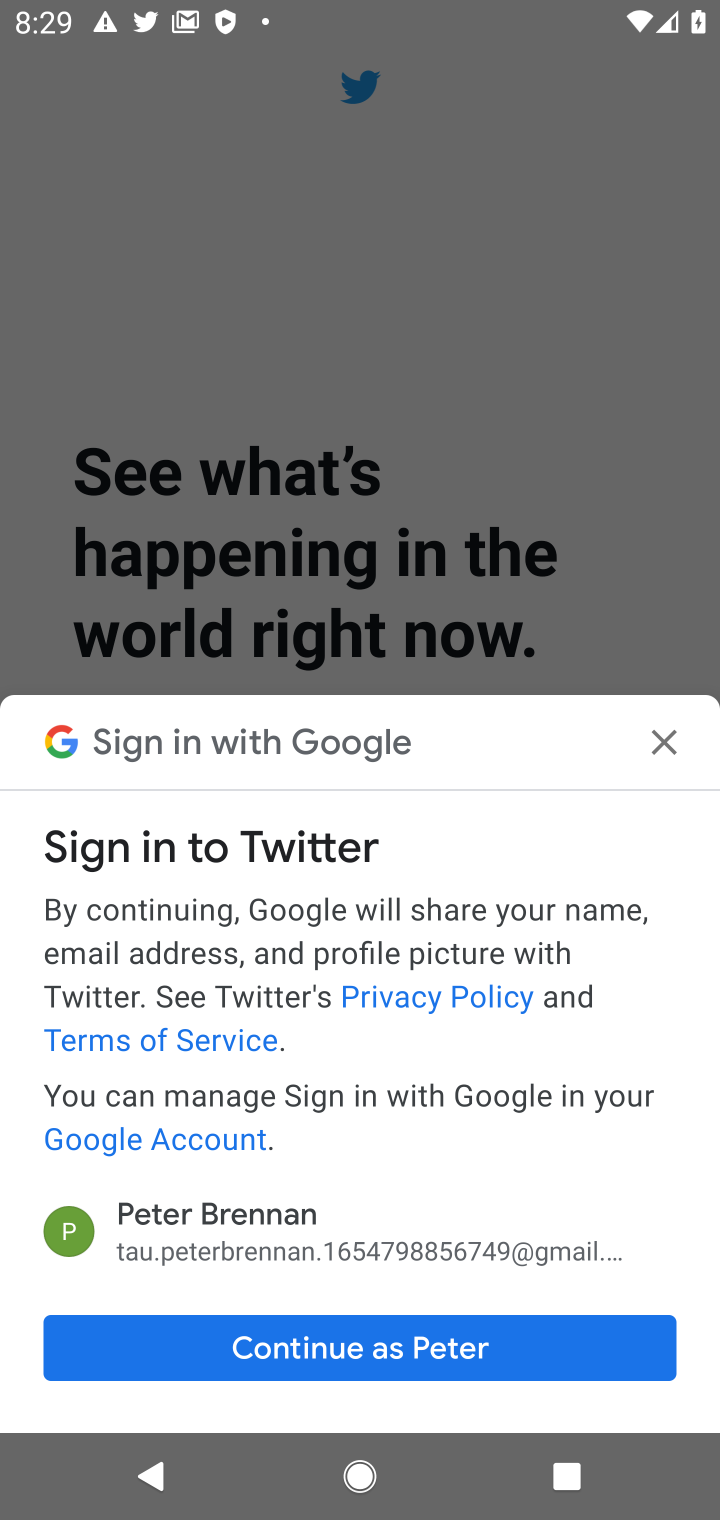
Step 30: click (344, 1343)
Your task to perform on an android device: Check the settings for the Twitter app Image 31: 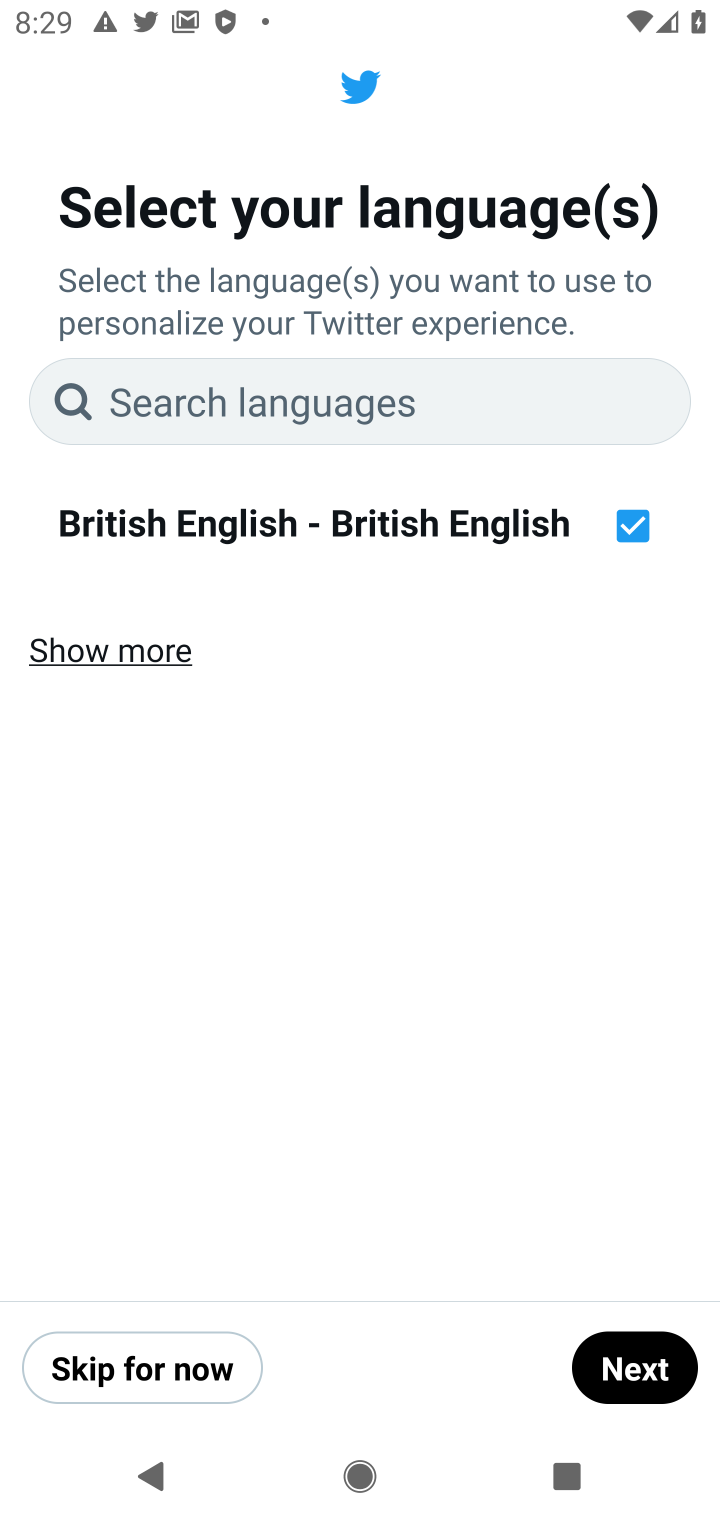
Step 31: click (253, 536)
Your task to perform on an android device: Check the settings for the Twitter app Image 32: 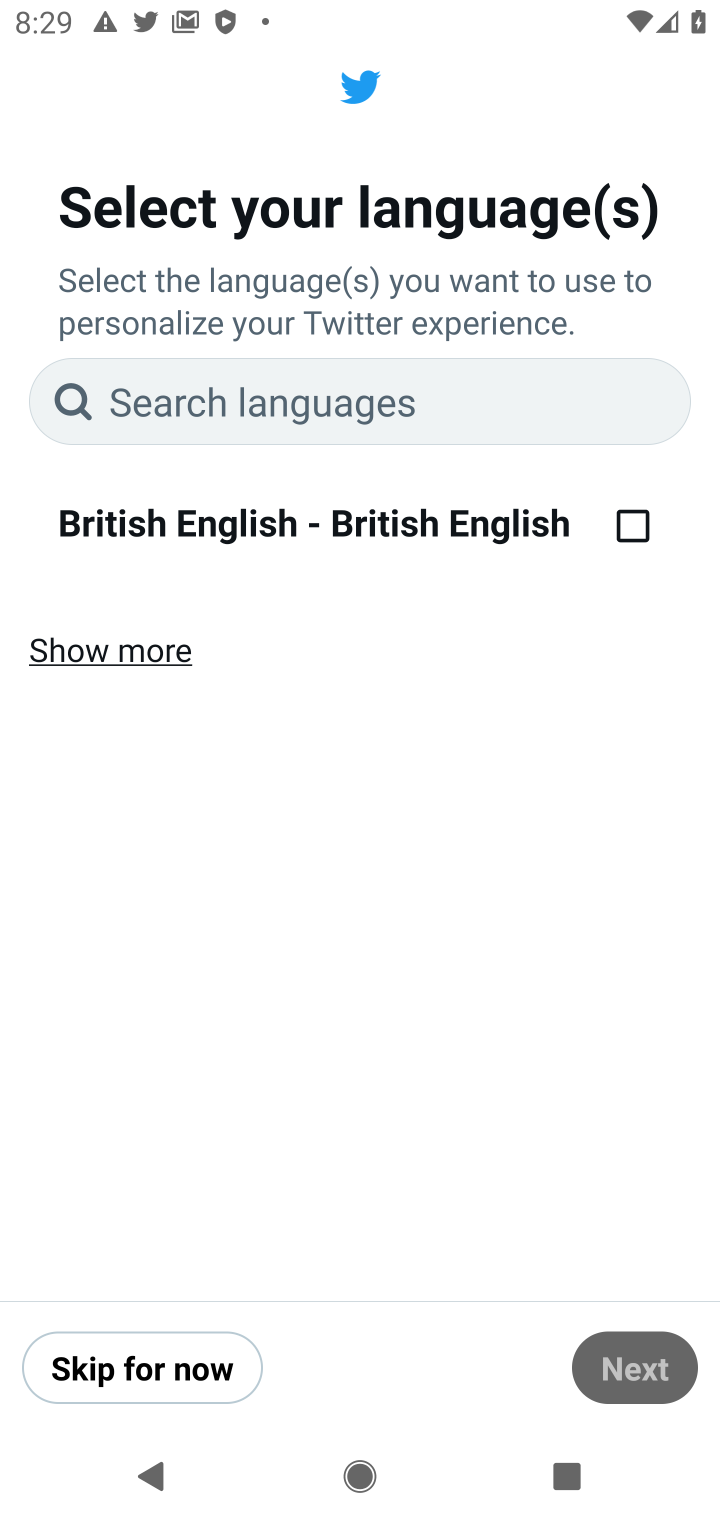
Step 32: click (636, 517)
Your task to perform on an android device: Check the settings for the Twitter app Image 33: 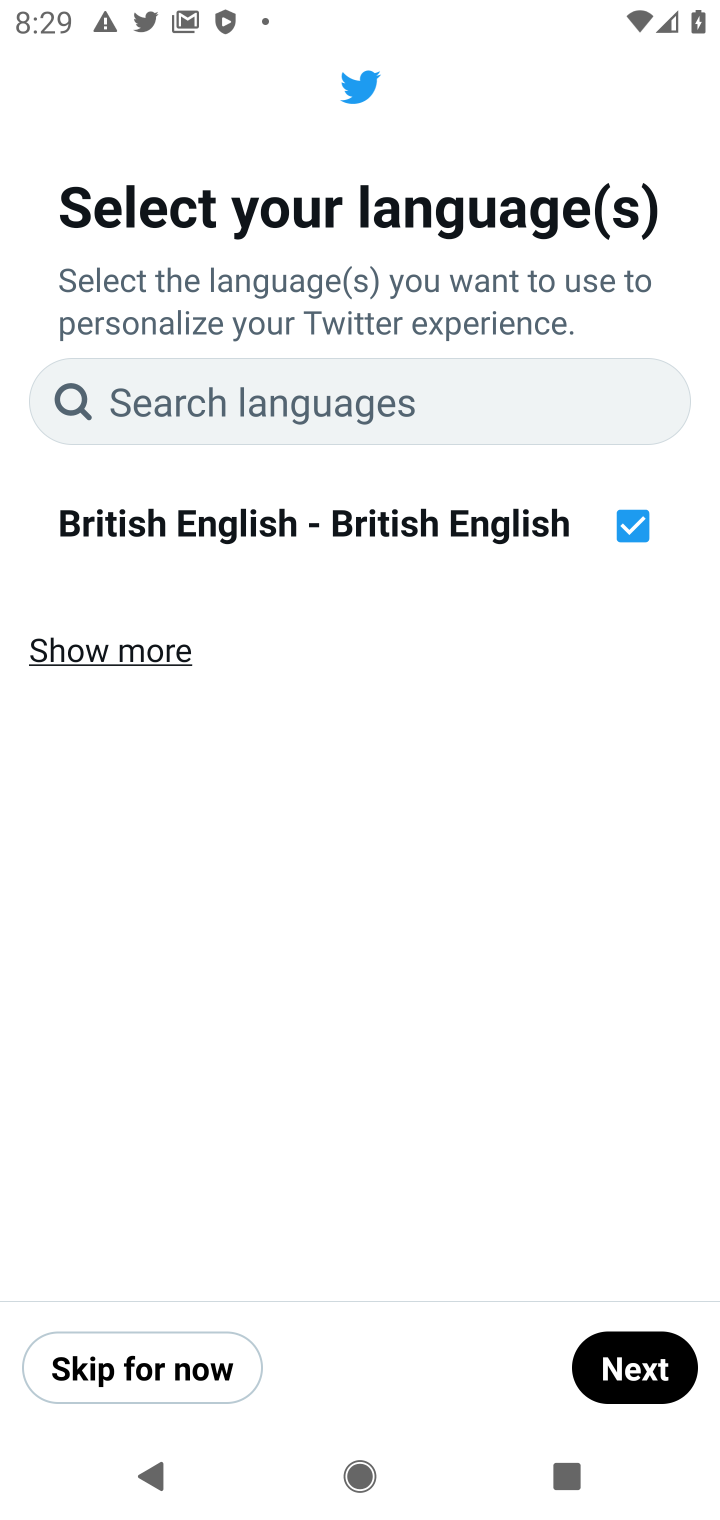
Step 33: click (621, 1369)
Your task to perform on an android device: Check the settings for the Twitter app Image 34: 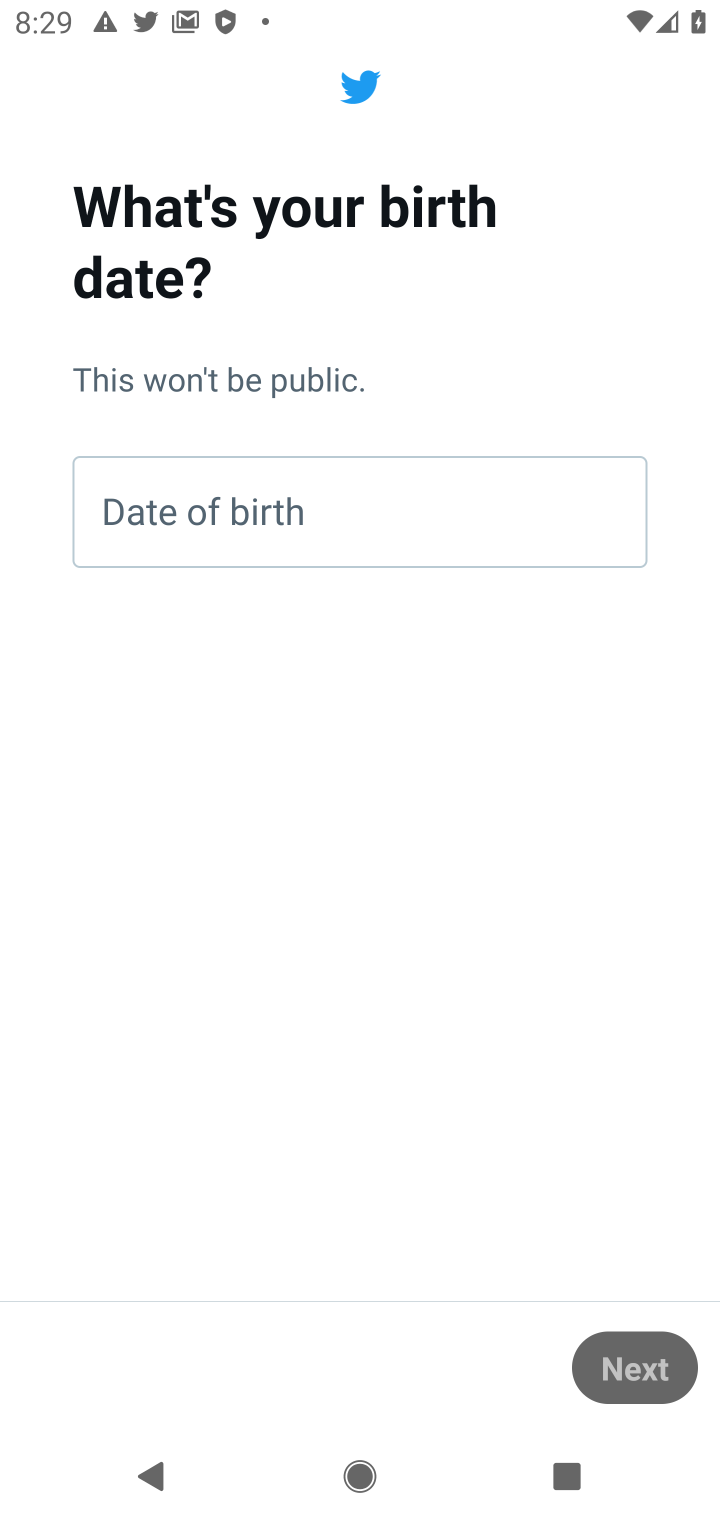
Step 34: task complete